Your task to perform on an android device: open app "Flipkart Online Shopping App" (install if not already installed) Image 0: 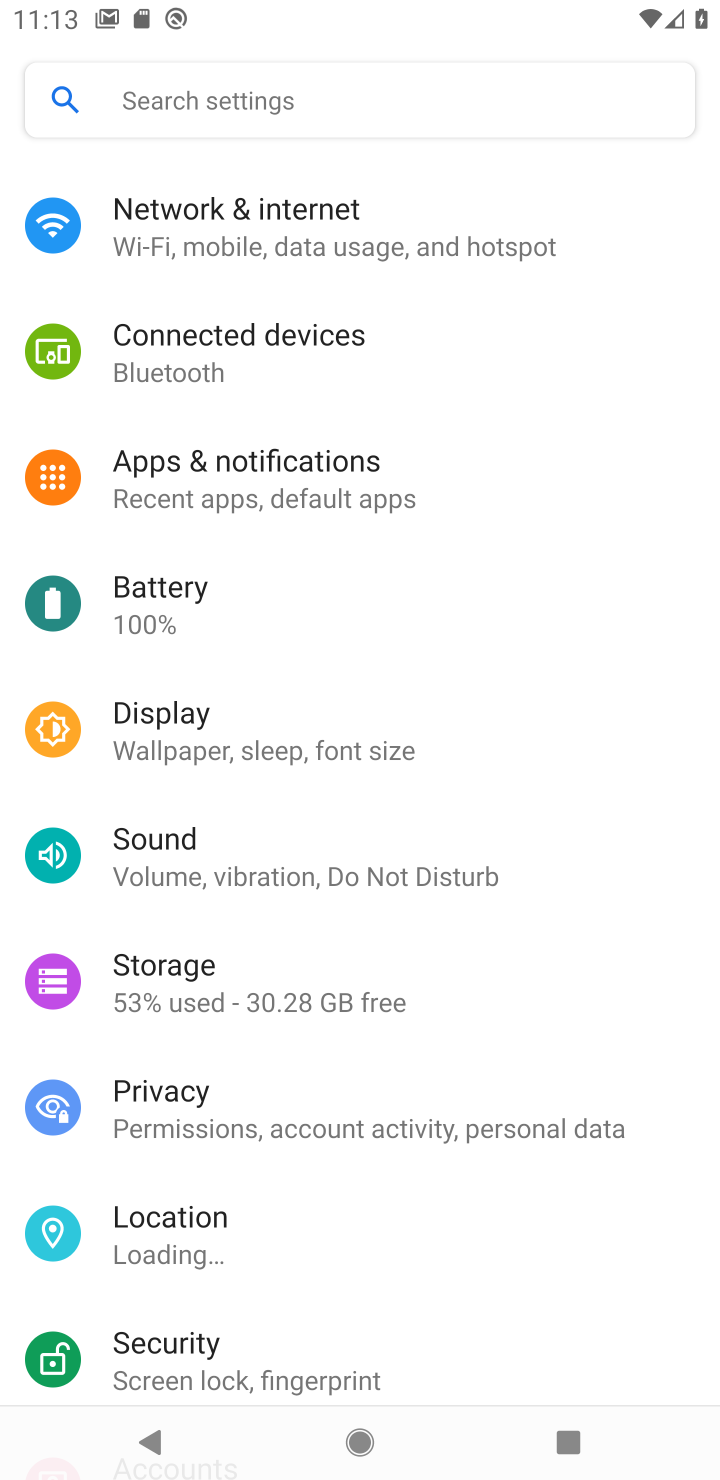
Step 0: press back button
Your task to perform on an android device: open app "Flipkart Online Shopping App" (install if not already installed) Image 1: 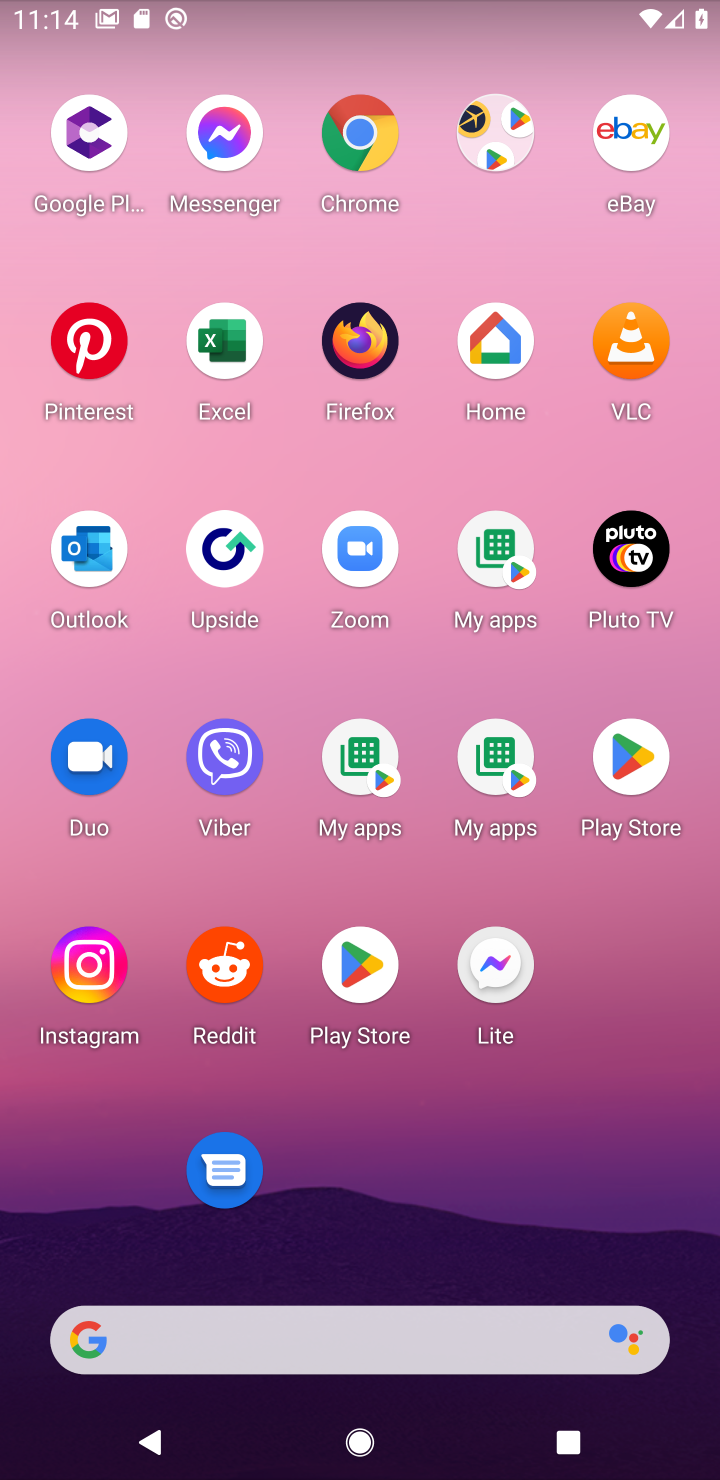
Step 1: click (335, 976)
Your task to perform on an android device: open app "Flipkart Online Shopping App" (install if not already installed) Image 2: 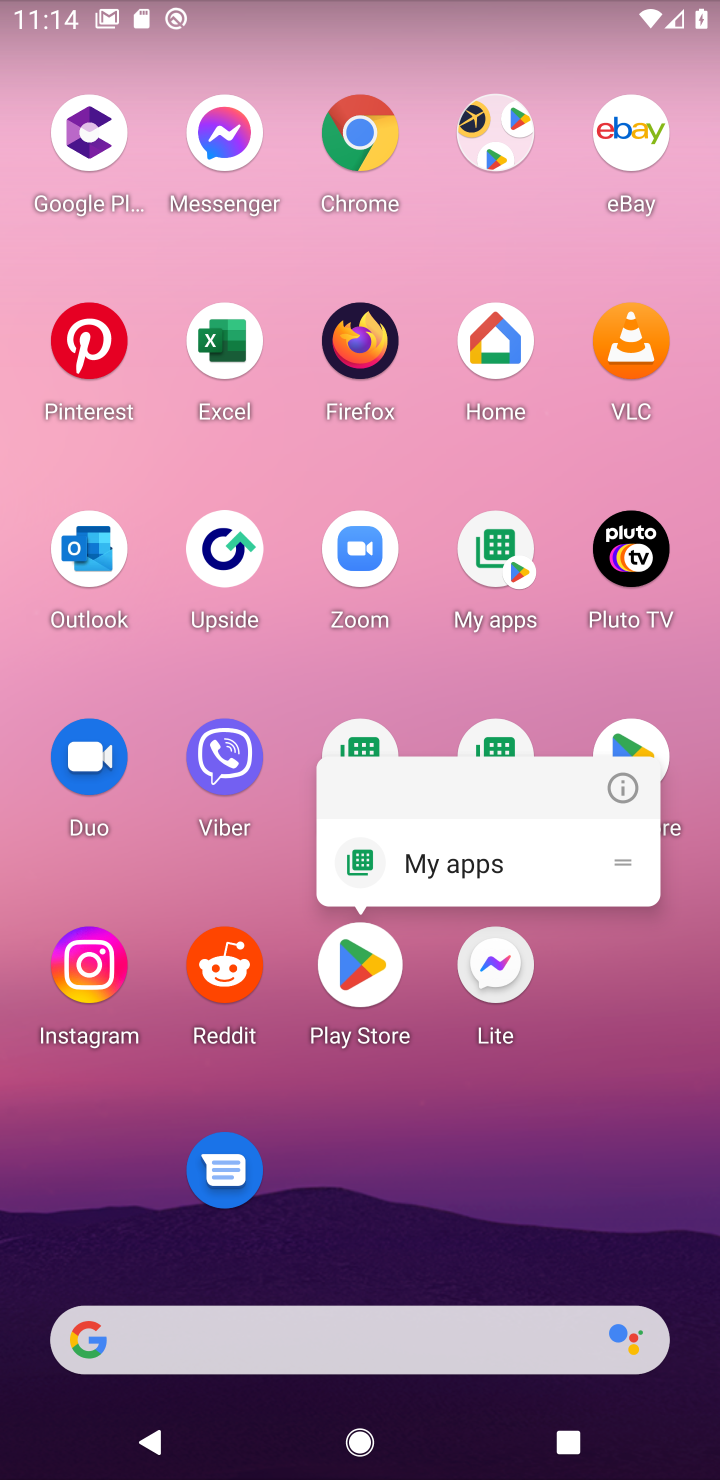
Step 2: click (338, 976)
Your task to perform on an android device: open app "Flipkart Online Shopping App" (install if not already installed) Image 3: 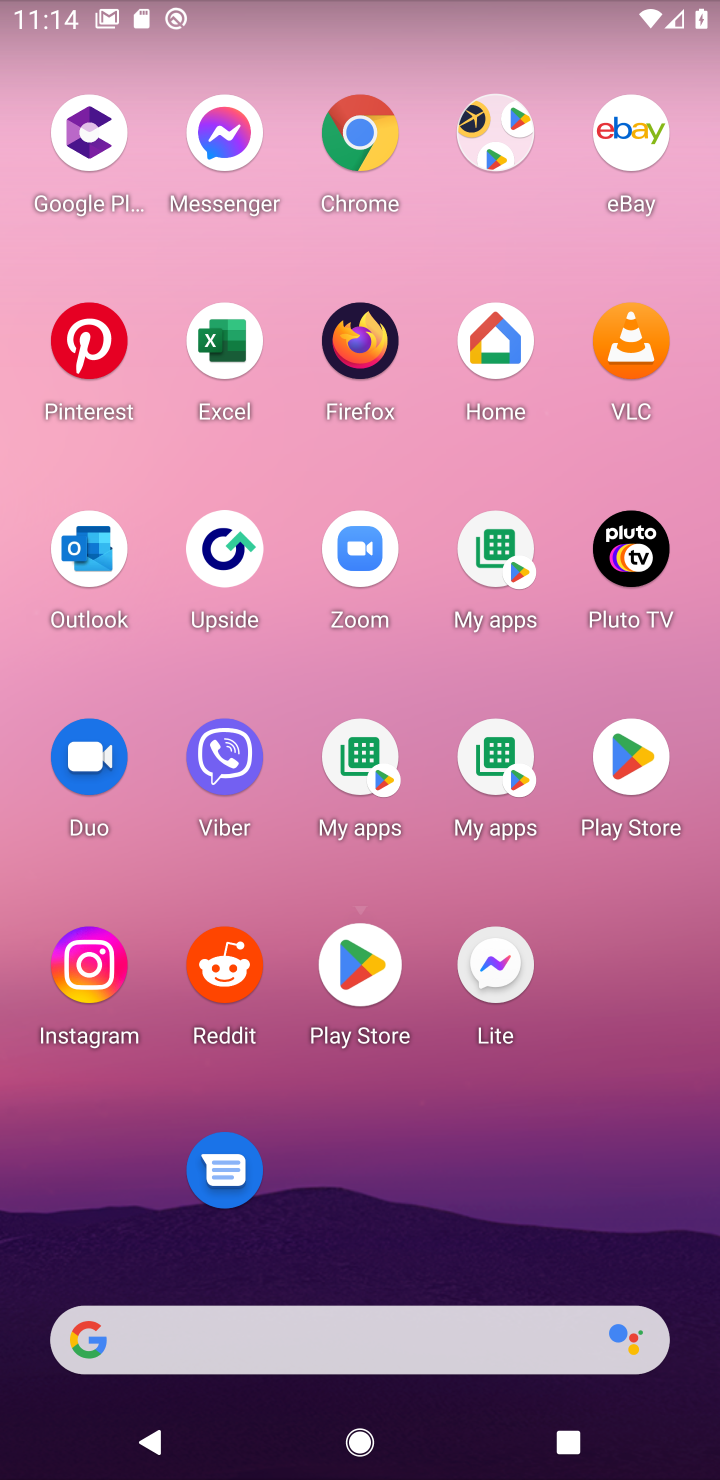
Step 3: click (460, 858)
Your task to perform on an android device: open app "Flipkart Online Shopping App" (install if not already installed) Image 4: 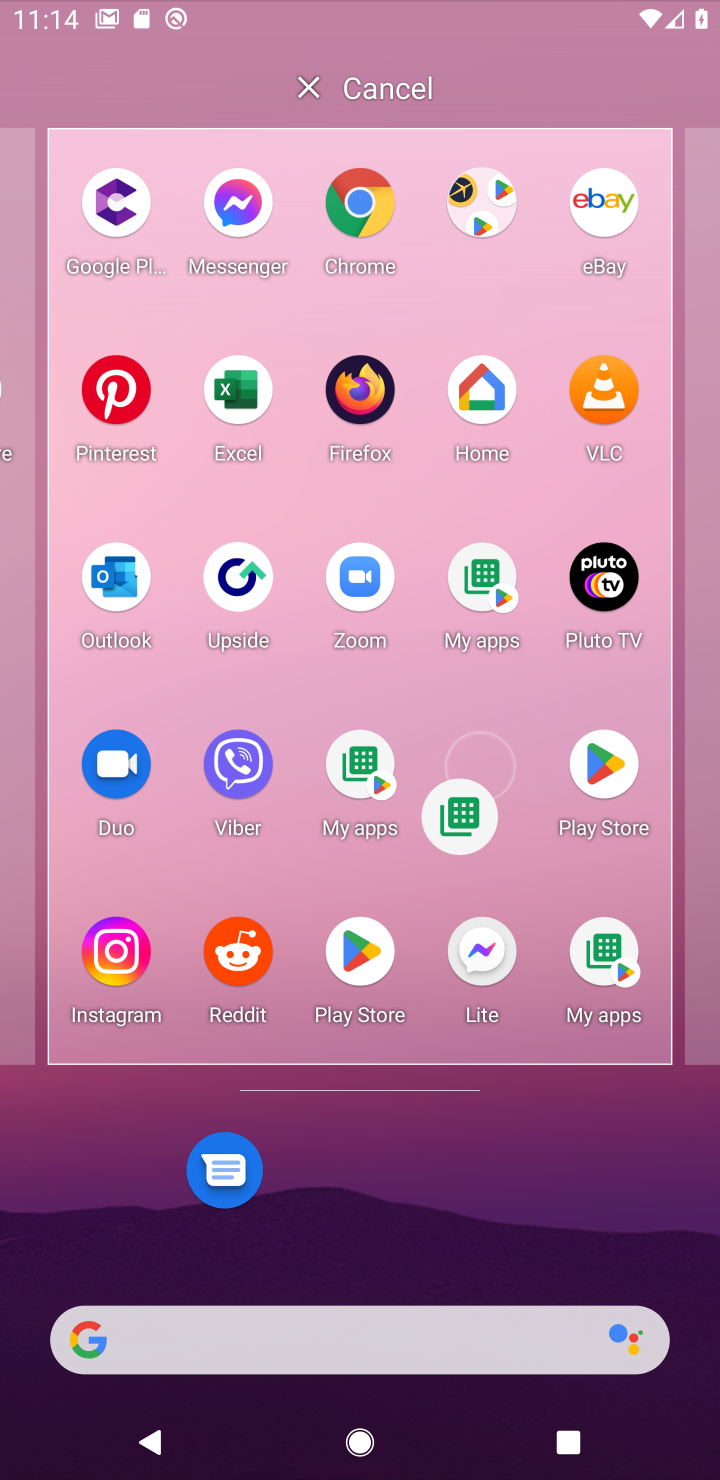
Step 4: click (492, 873)
Your task to perform on an android device: open app "Flipkart Online Shopping App" (install if not already installed) Image 5: 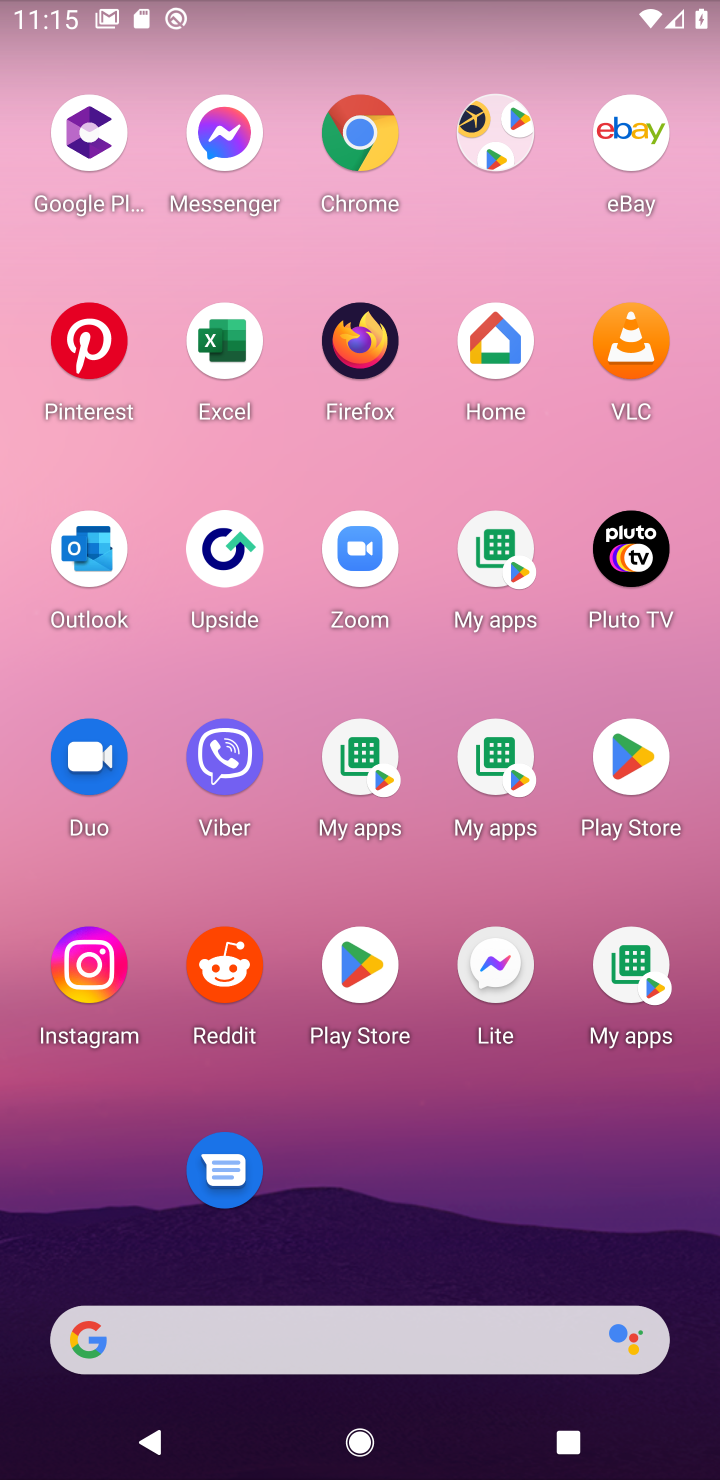
Step 5: click (639, 764)
Your task to perform on an android device: open app "Flipkart Online Shopping App" (install if not already installed) Image 6: 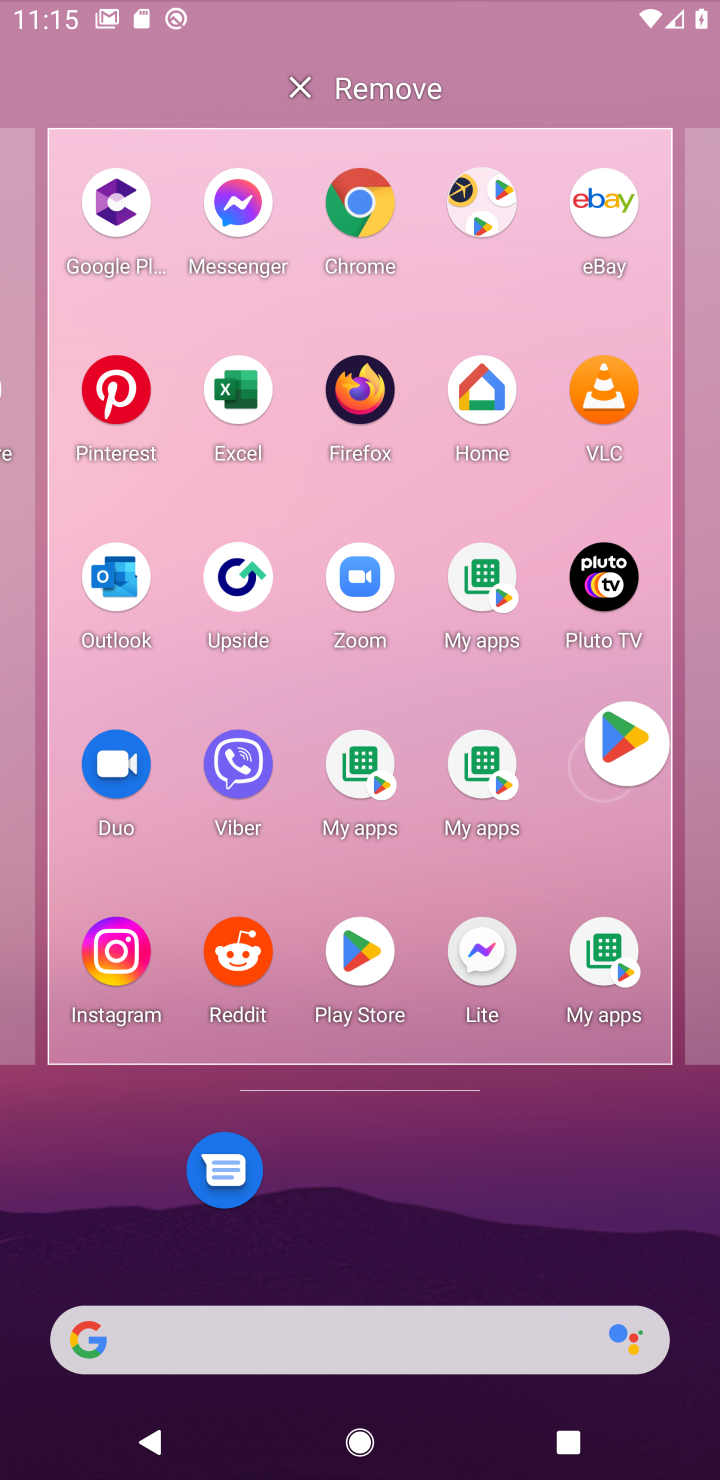
Step 6: click (528, 677)
Your task to perform on an android device: open app "Flipkart Online Shopping App" (install if not already installed) Image 7: 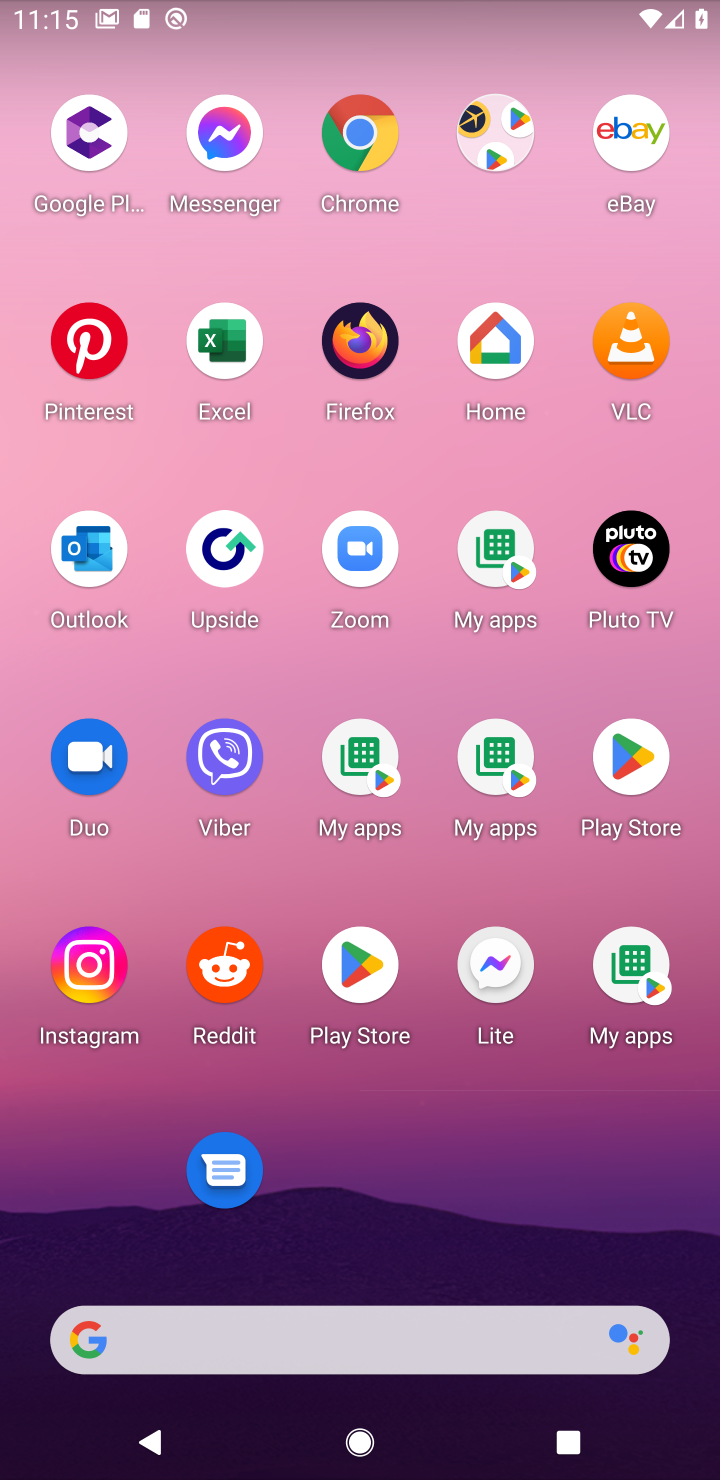
Step 7: click (621, 791)
Your task to perform on an android device: open app "Flipkart Online Shopping App" (install if not already installed) Image 8: 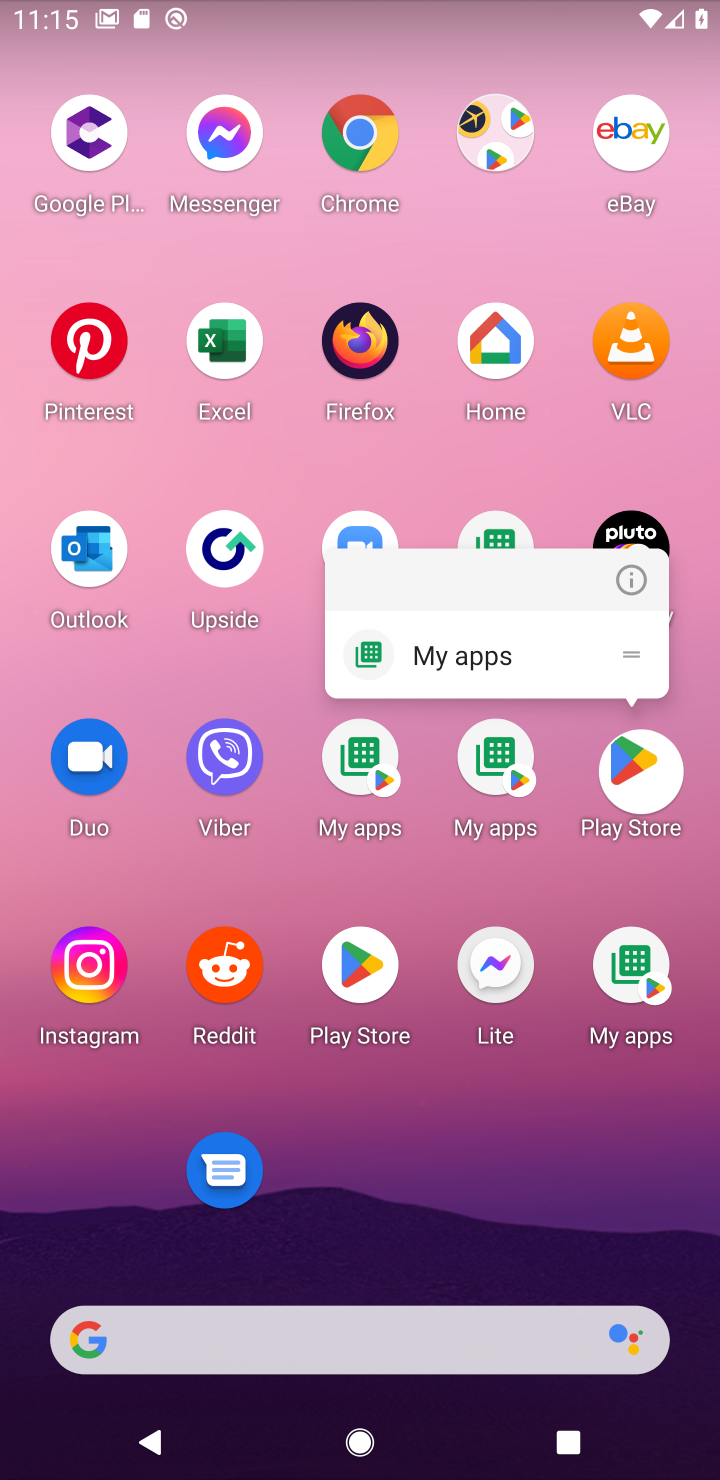
Step 8: click (631, 806)
Your task to perform on an android device: open app "Flipkart Online Shopping App" (install if not already installed) Image 9: 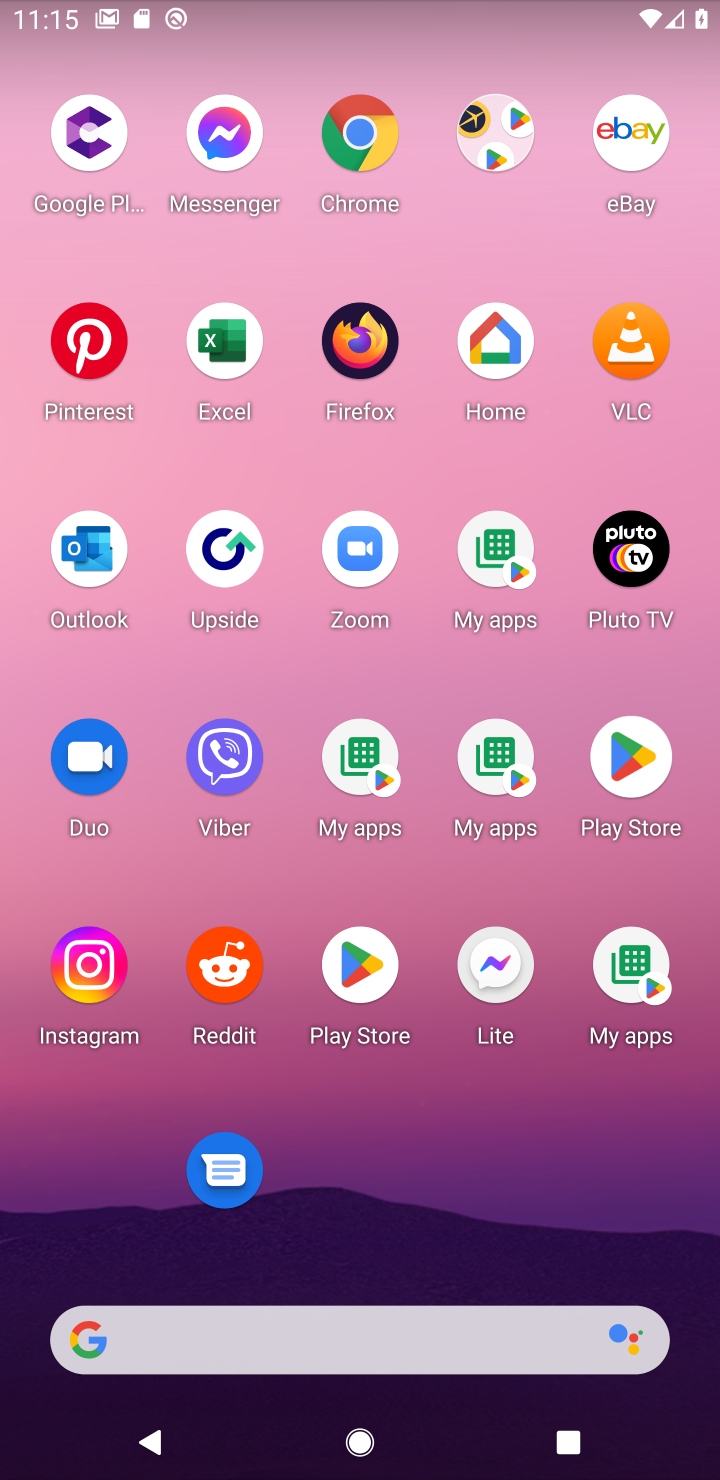
Step 9: click (500, 645)
Your task to perform on an android device: open app "Flipkart Online Shopping App" (install if not already installed) Image 10: 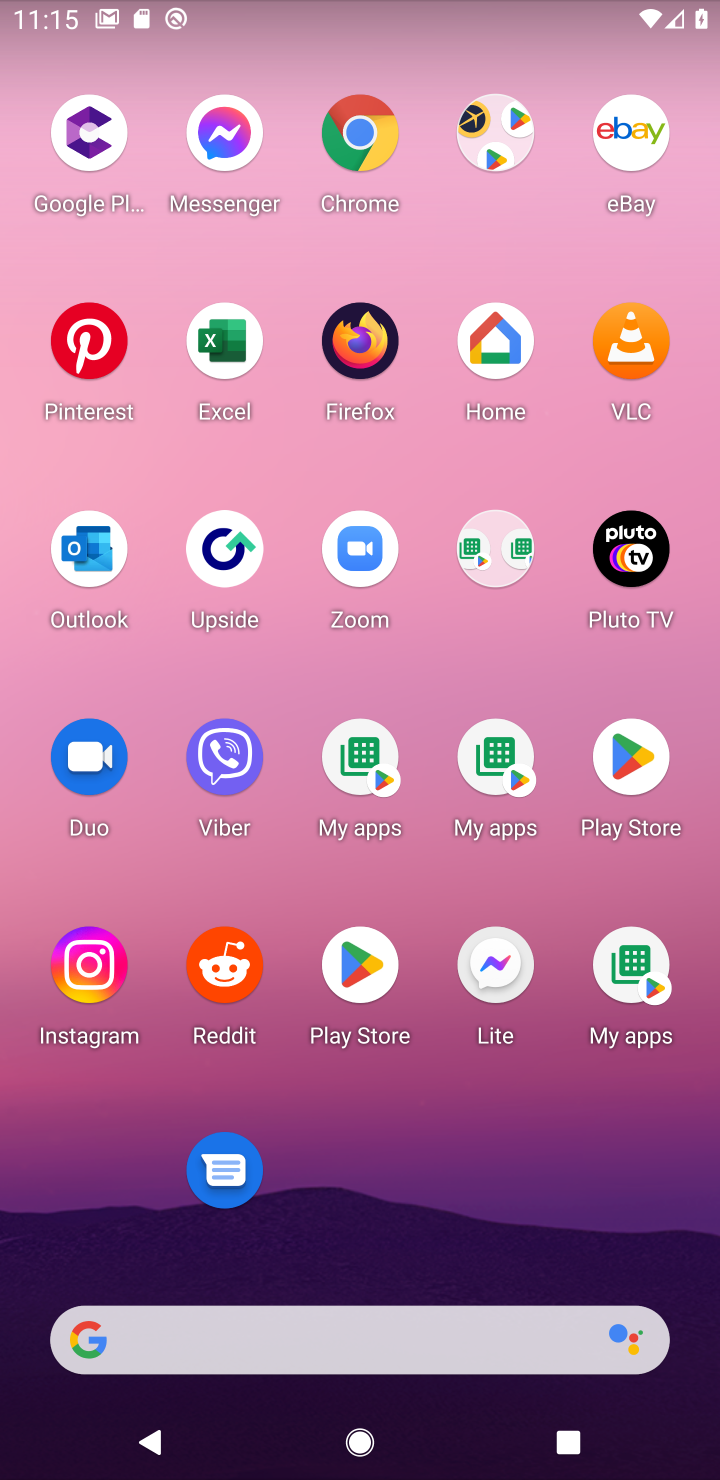
Step 10: click (641, 774)
Your task to perform on an android device: open app "Flipkart Online Shopping App" (install if not already installed) Image 11: 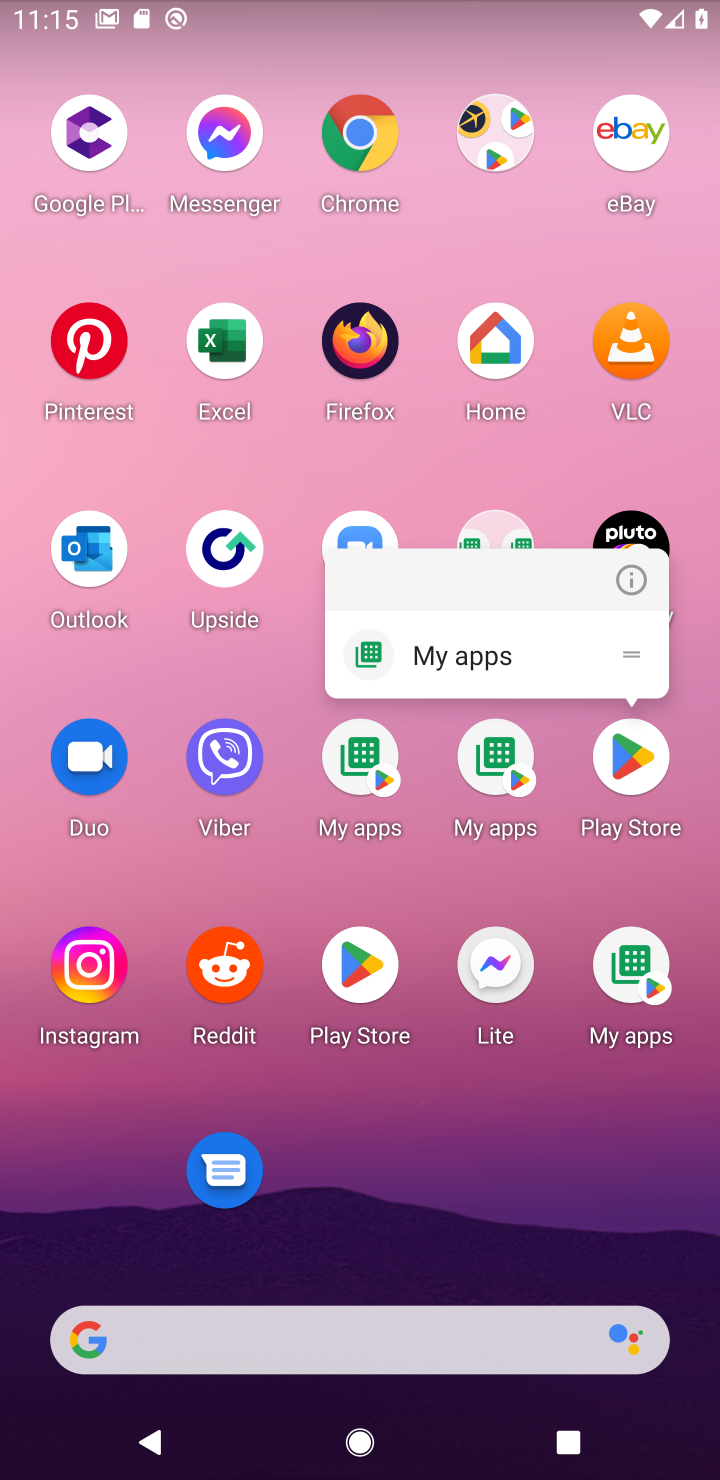
Step 11: drag from (494, 677) to (366, 690)
Your task to perform on an android device: open app "Flipkart Online Shopping App" (install if not already installed) Image 12: 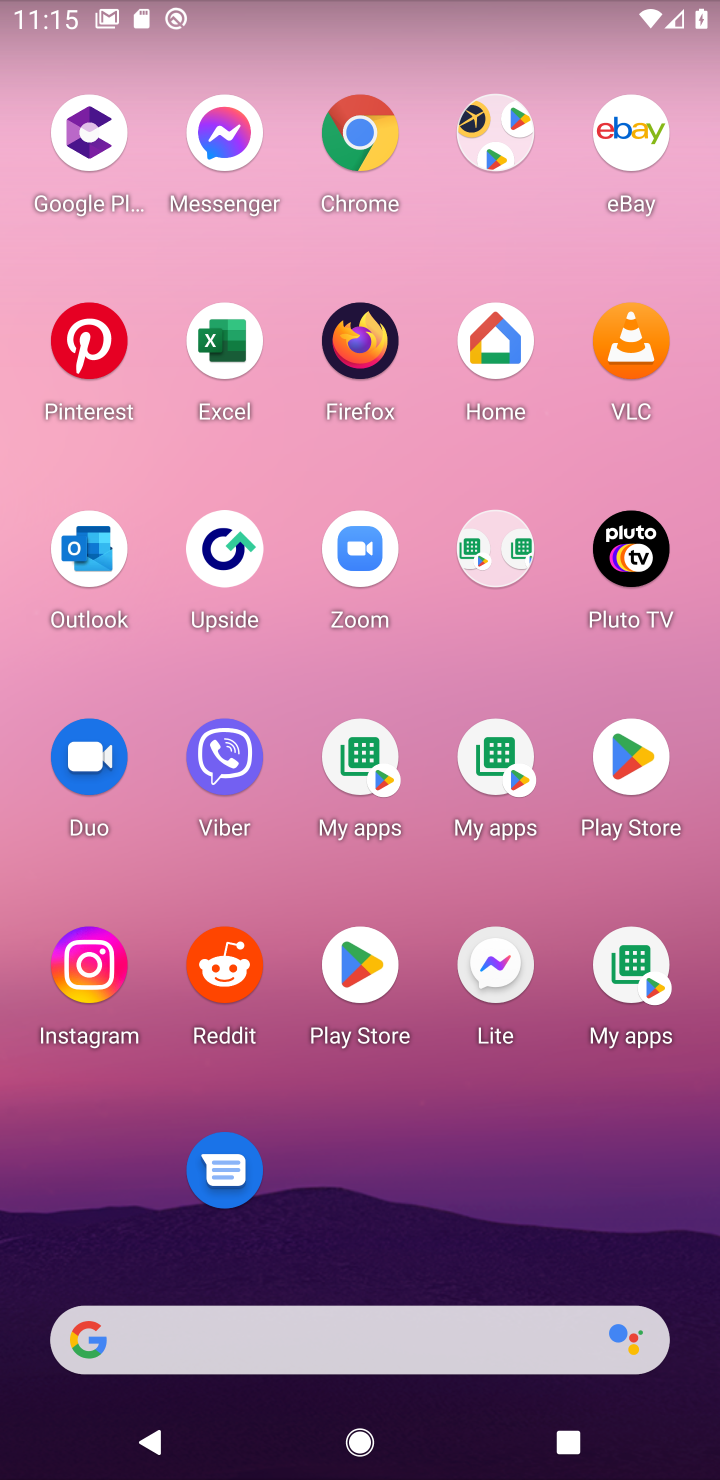
Step 12: click (640, 770)
Your task to perform on an android device: open app "Flipkart Online Shopping App" (install if not already installed) Image 13: 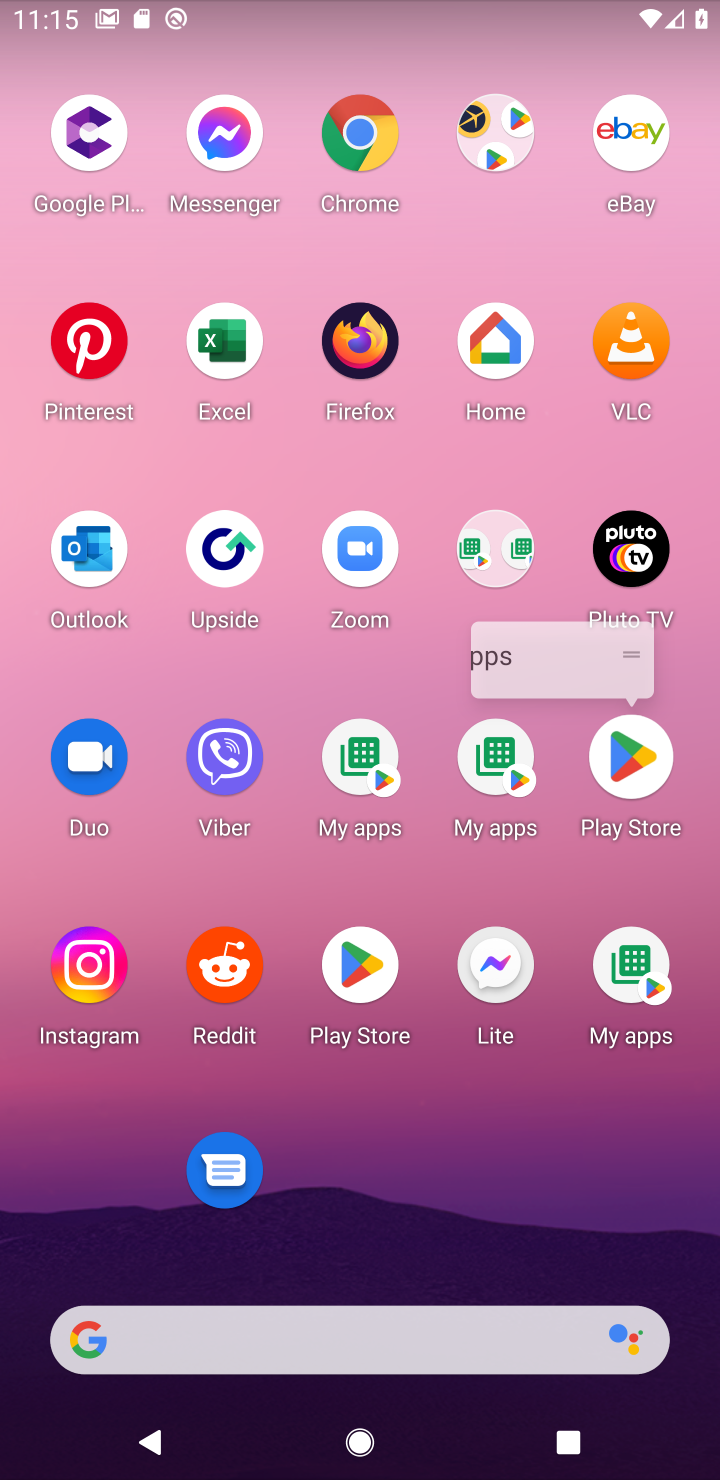
Step 13: click (643, 769)
Your task to perform on an android device: open app "Flipkart Online Shopping App" (install if not already installed) Image 14: 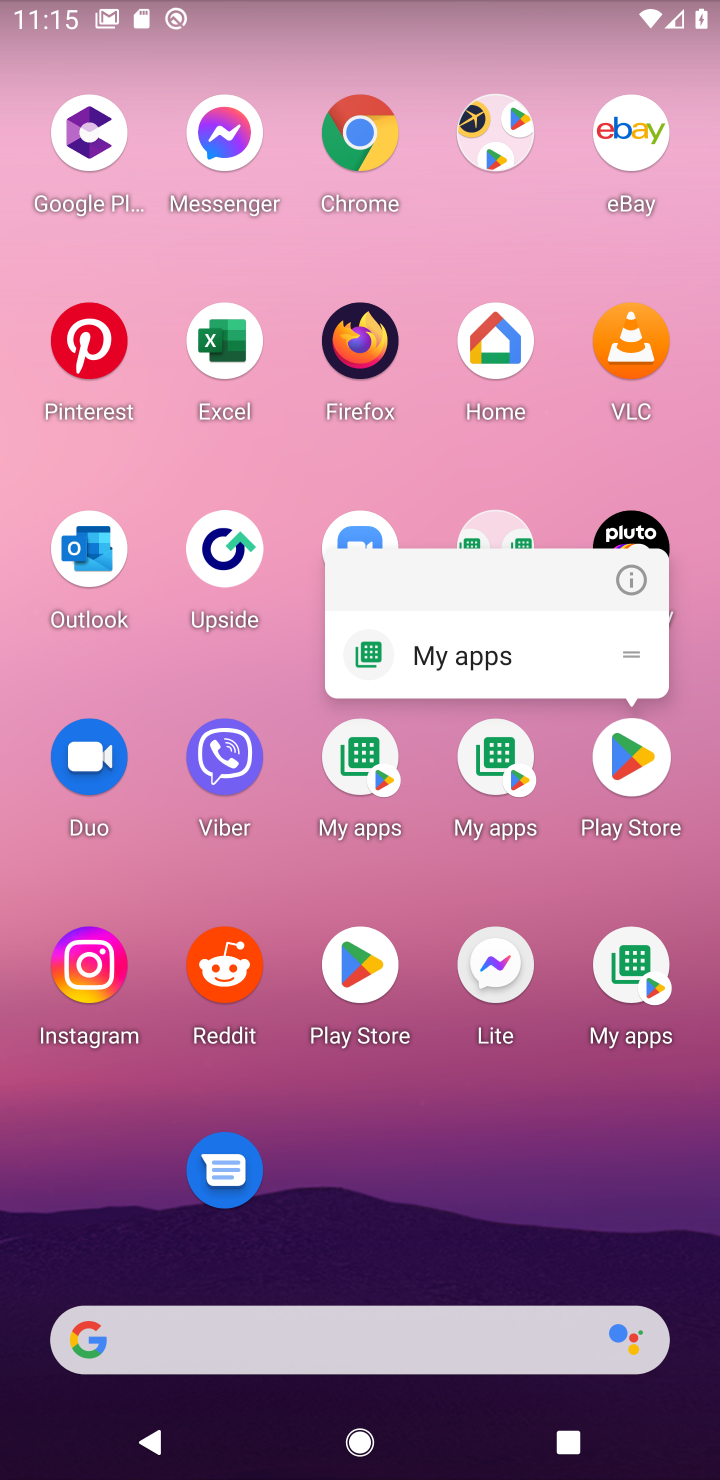
Step 14: click (647, 772)
Your task to perform on an android device: open app "Flipkart Online Shopping App" (install if not already installed) Image 15: 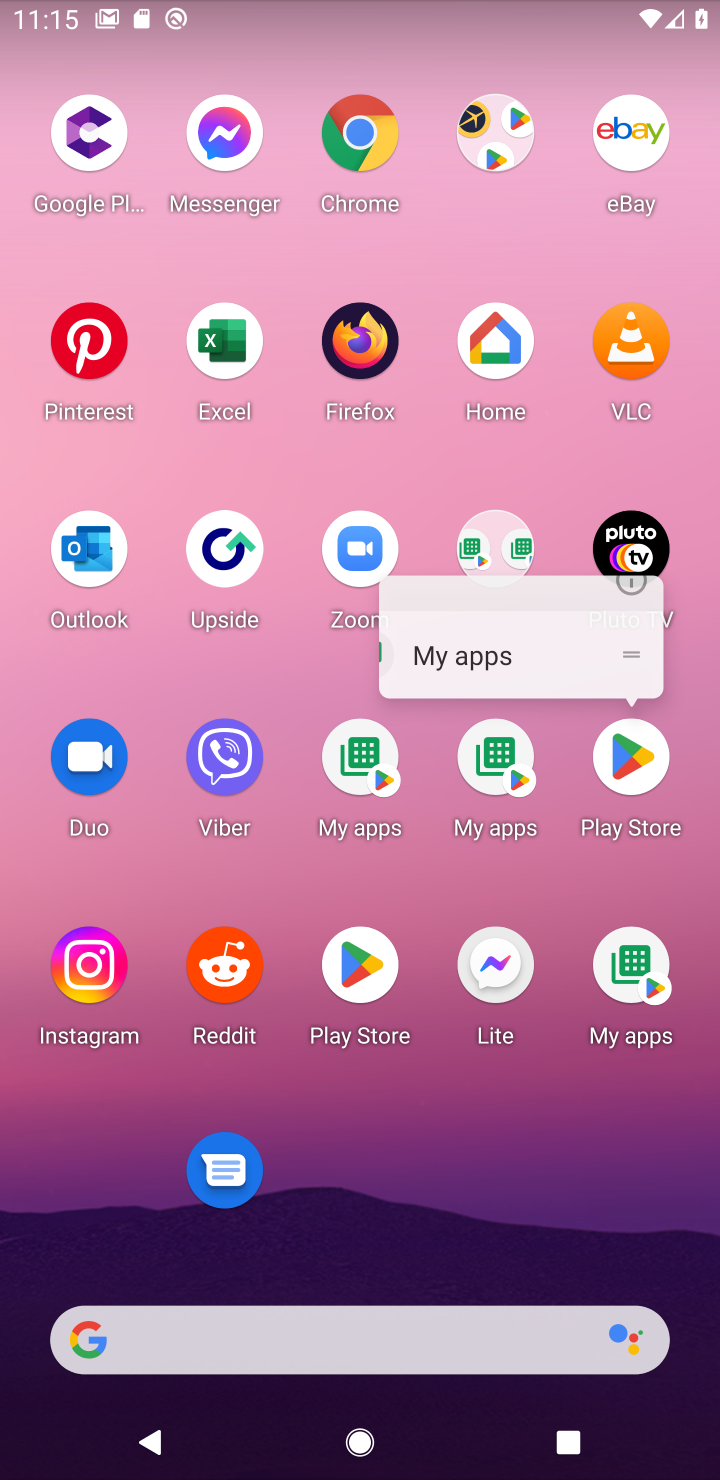
Step 15: click (448, 651)
Your task to perform on an android device: open app "Flipkart Online Shopping App" (install if not already installed) Image 16: 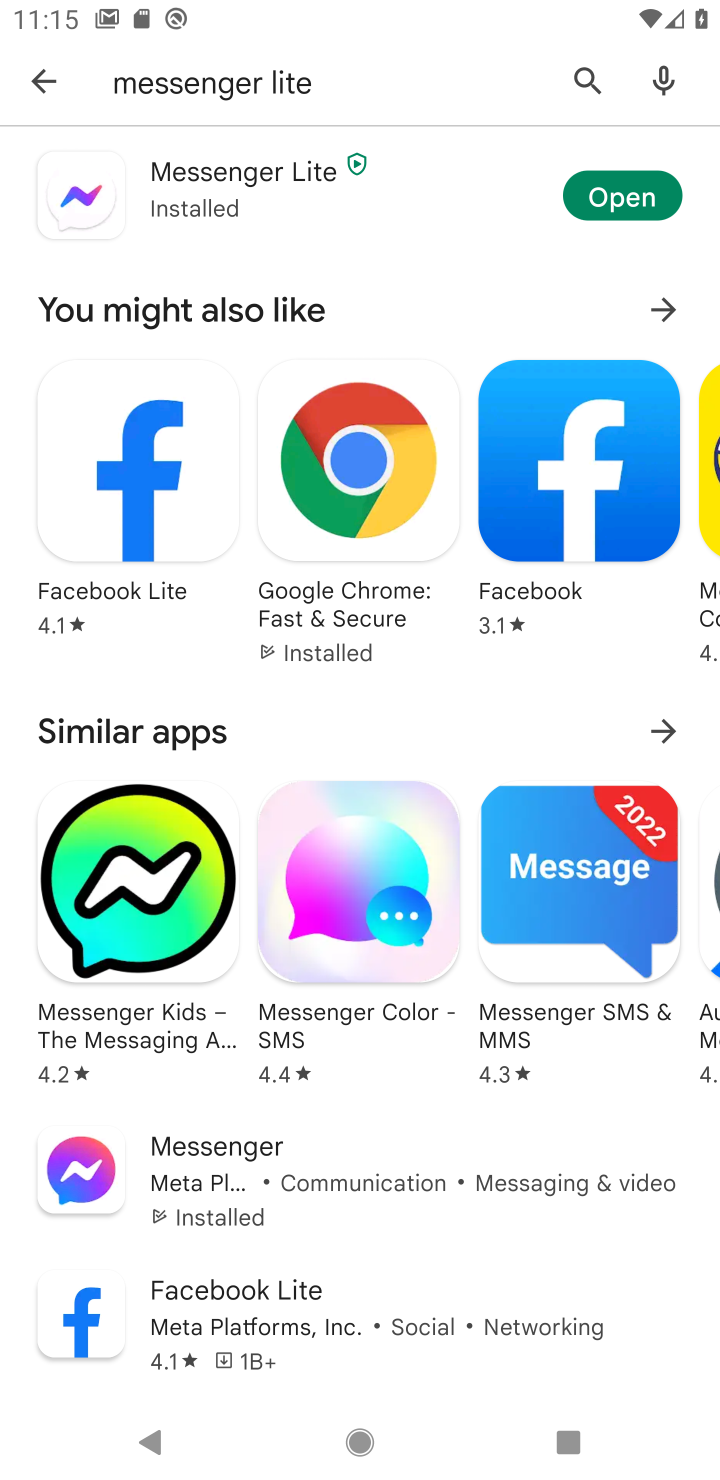
Step 16: click (52, 78)
Your task to perform on an android device: open app "Flipkart Online Shopping App" (install if not already installed) Image 17: 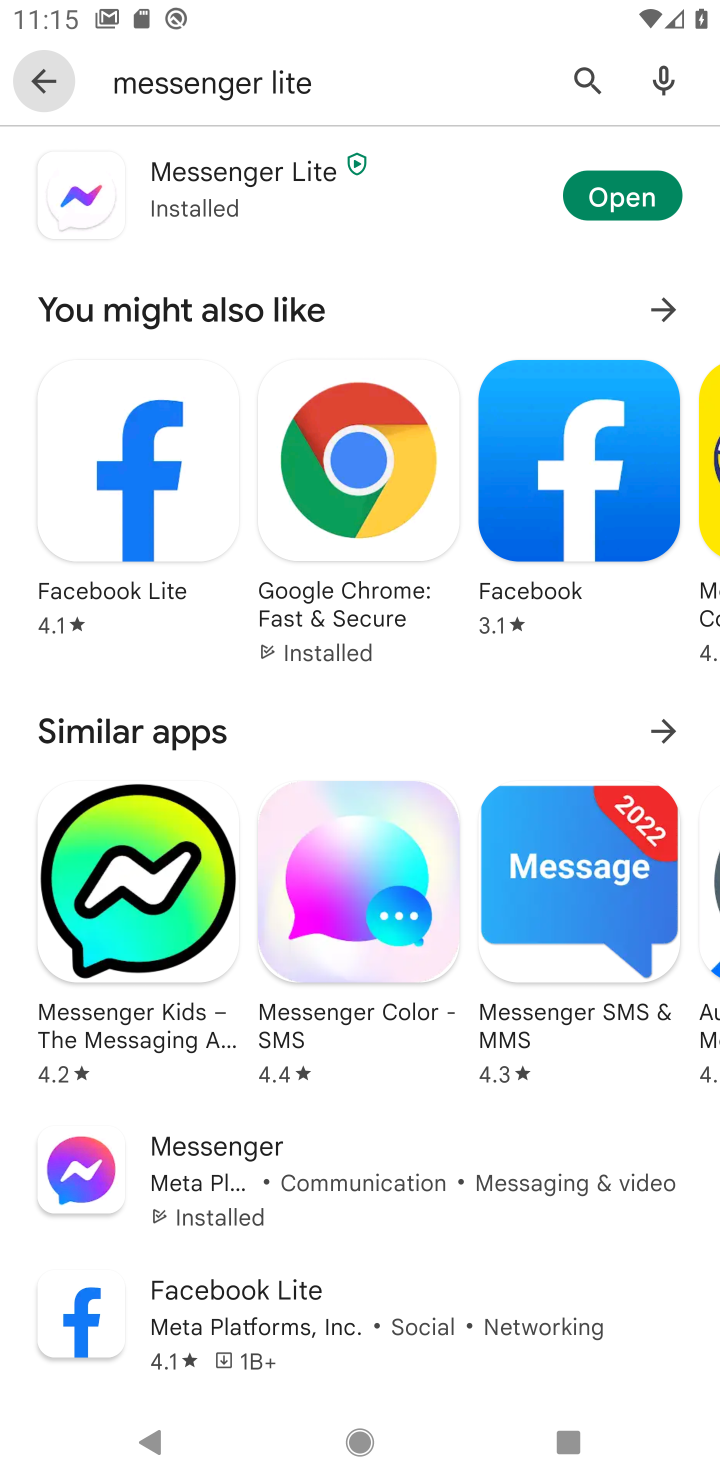
Step 17: click (590, 84)
Your task to perform on an android device: open app "Flipkart Online Shopping App" (install if not already installed) Image 18: 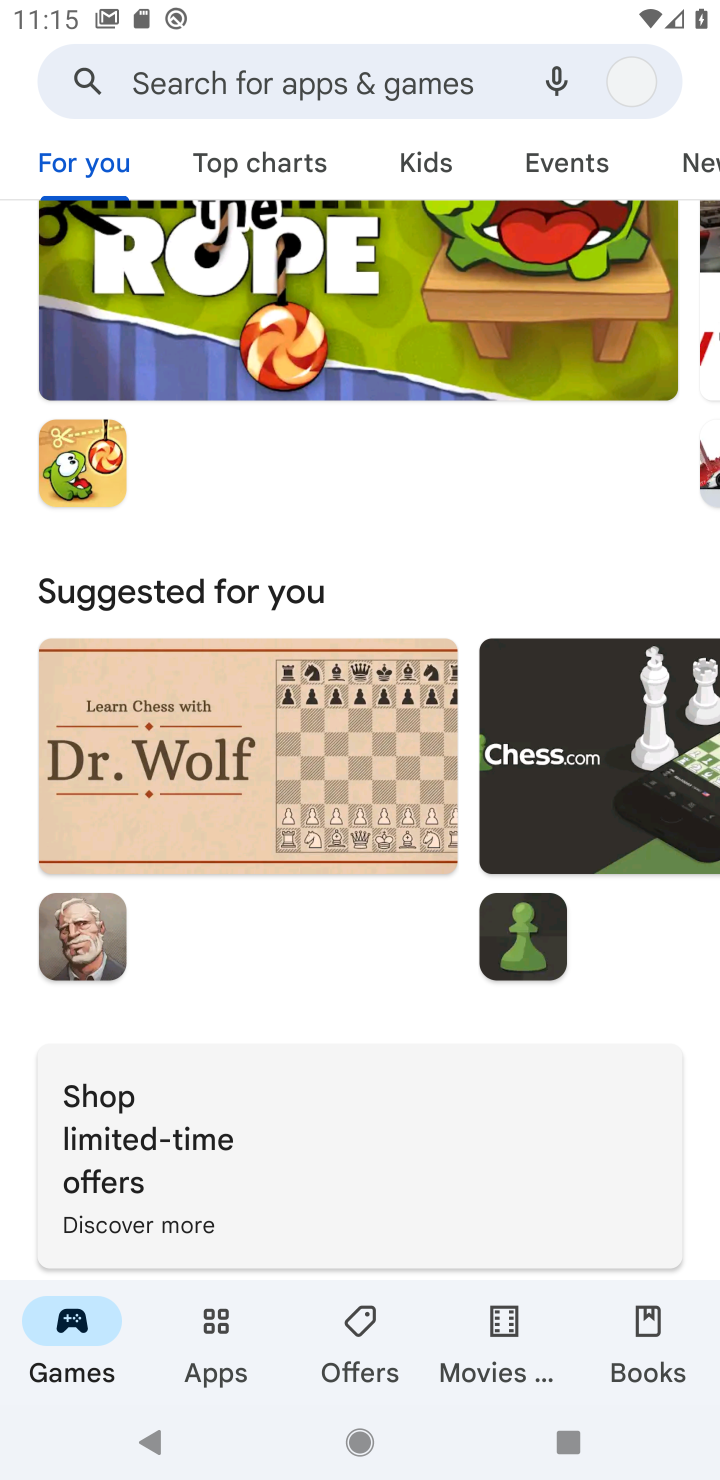
Step 18: click (575, 57)
Your task to perform on an android device: open app "Flipkart Online Shopping App" (install if not already installed) Image 19: 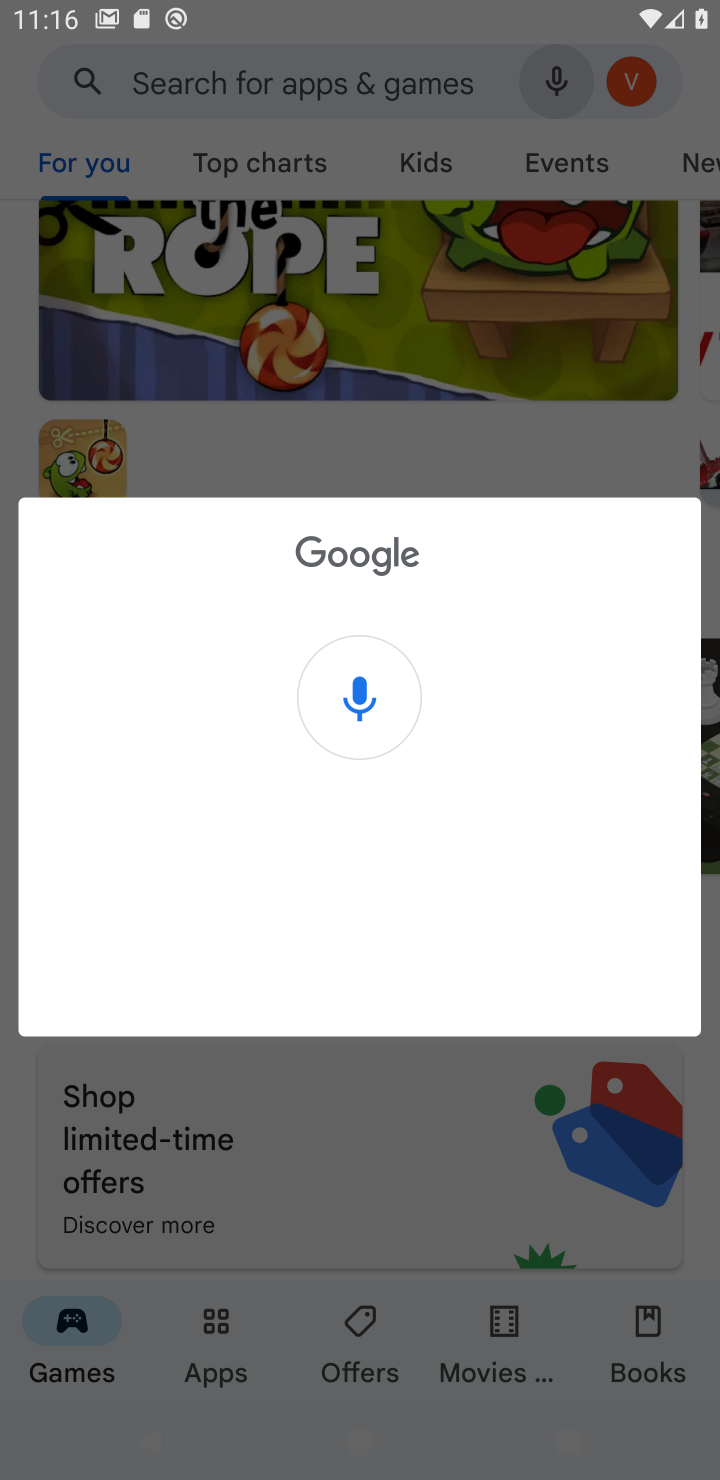
Step 19: click (268, 91)
Your task to perform on an android device: open app "Flipkart Online Shopping App" (install if not already installed) Image 20: 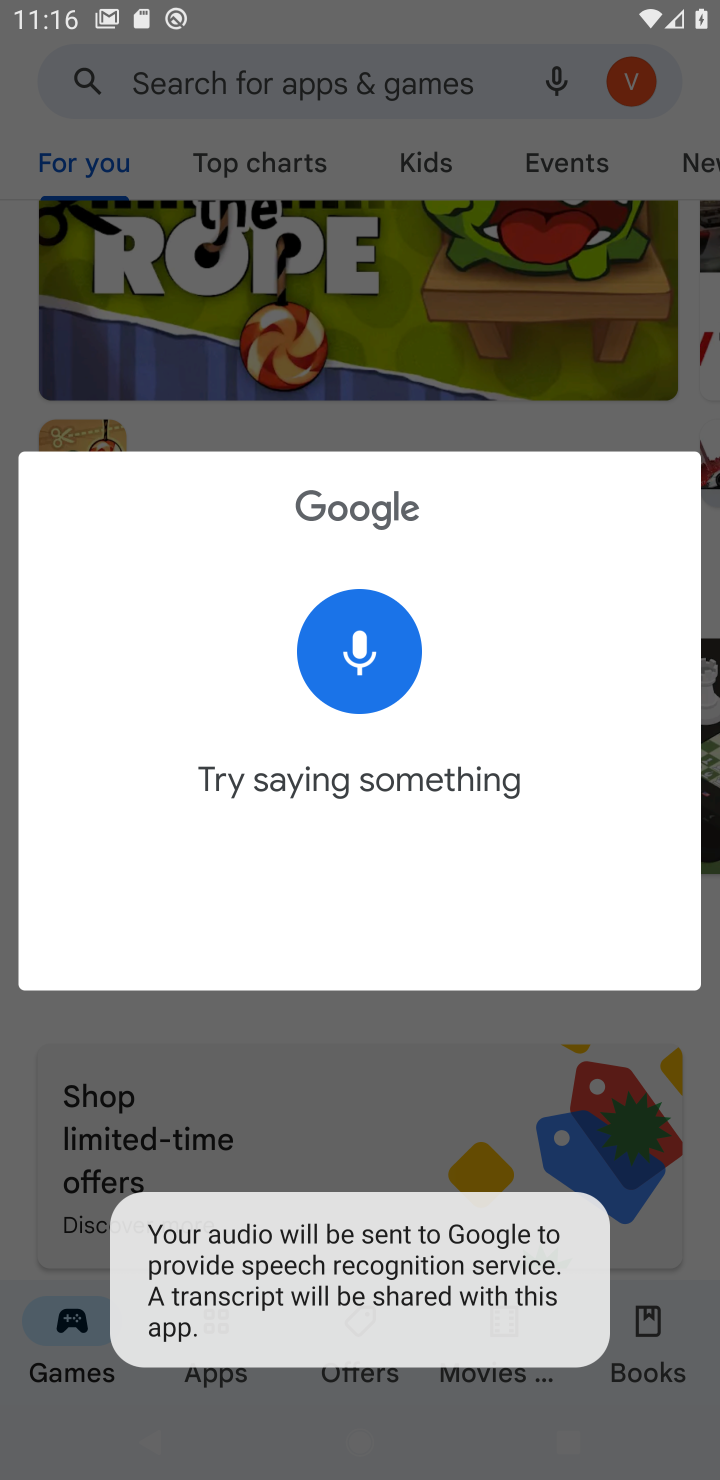
Step 20: click (410, 381)
Your task to perform on an android device: open app "Flipkart Online Shopping App" (install if not already installed) Image 21: 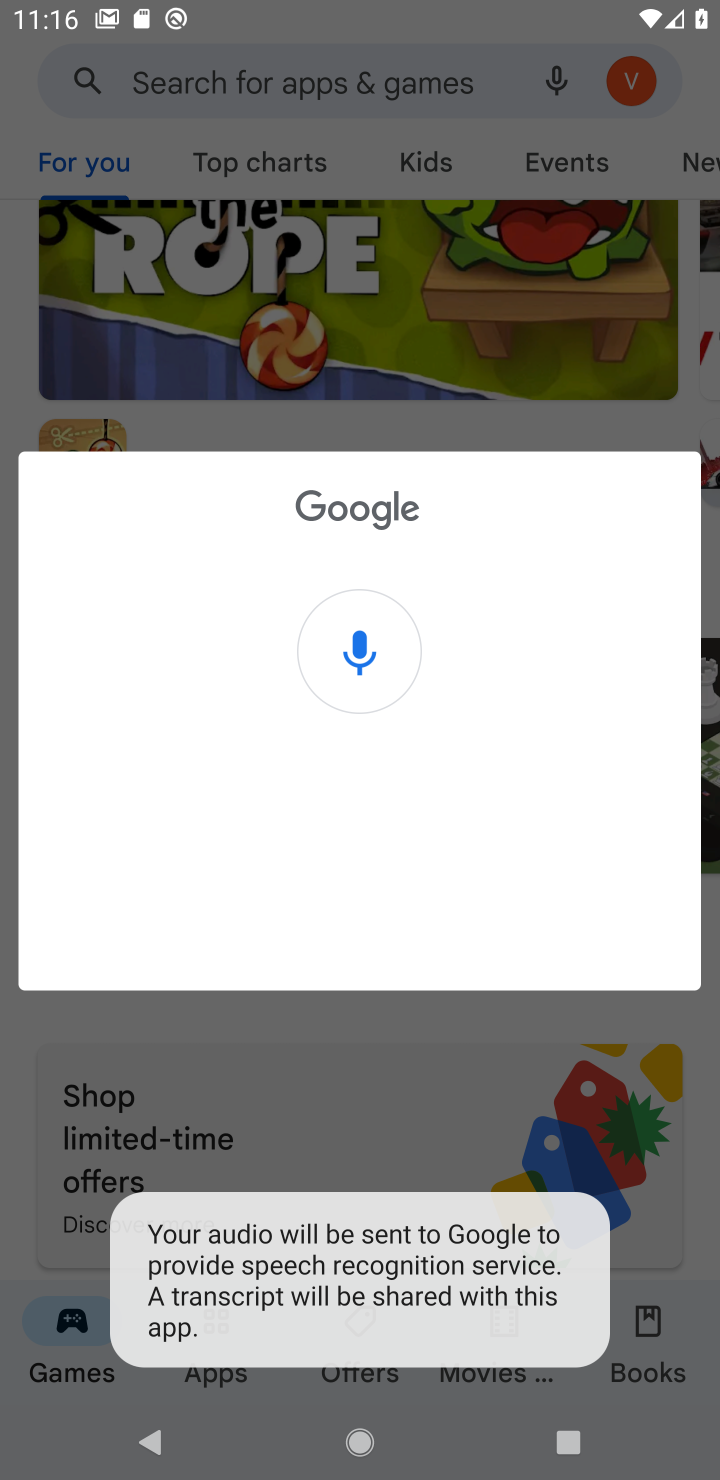
Step 21: click (219, 98)
Your task to perform on an android device: open app "Flipkart Online Shopping App" (install if not already installed) Image 22: 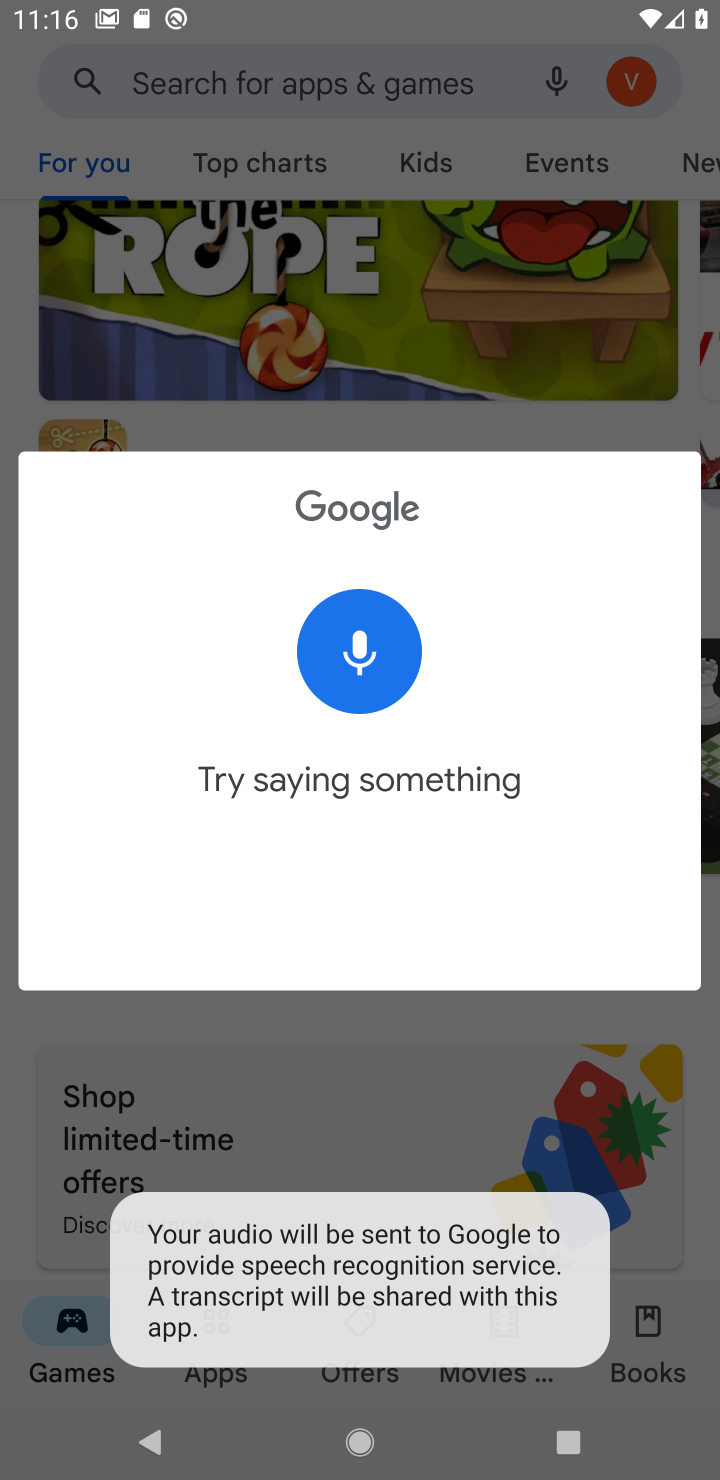
Step 22: click (251, 87)
Your task to perform on an android device: open app "Flipkart Online Shopping App" (install if not already installed) Image 23: 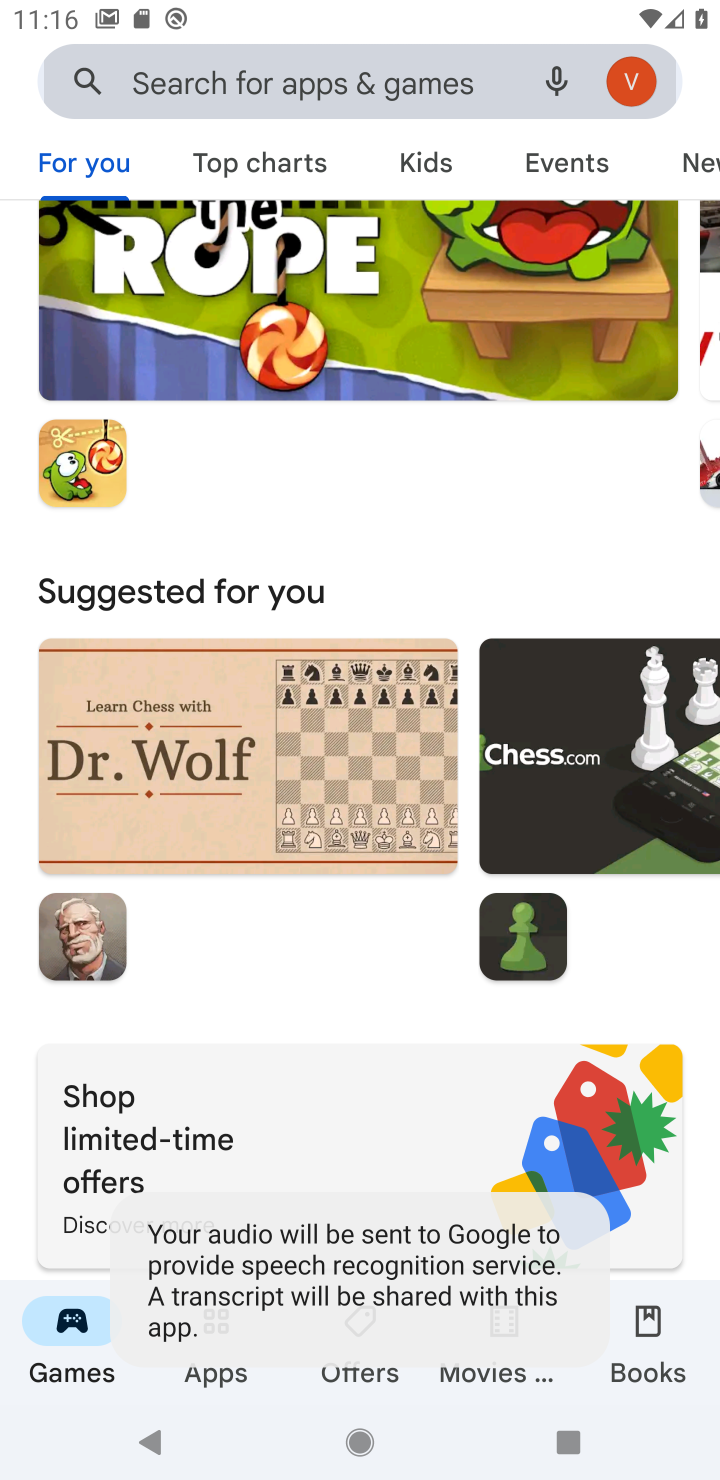
Step 23: click (267, 76)
Your task to perform on an android device: open app "Flipkart Online Shopping App" (install if not already installed) Image 24: 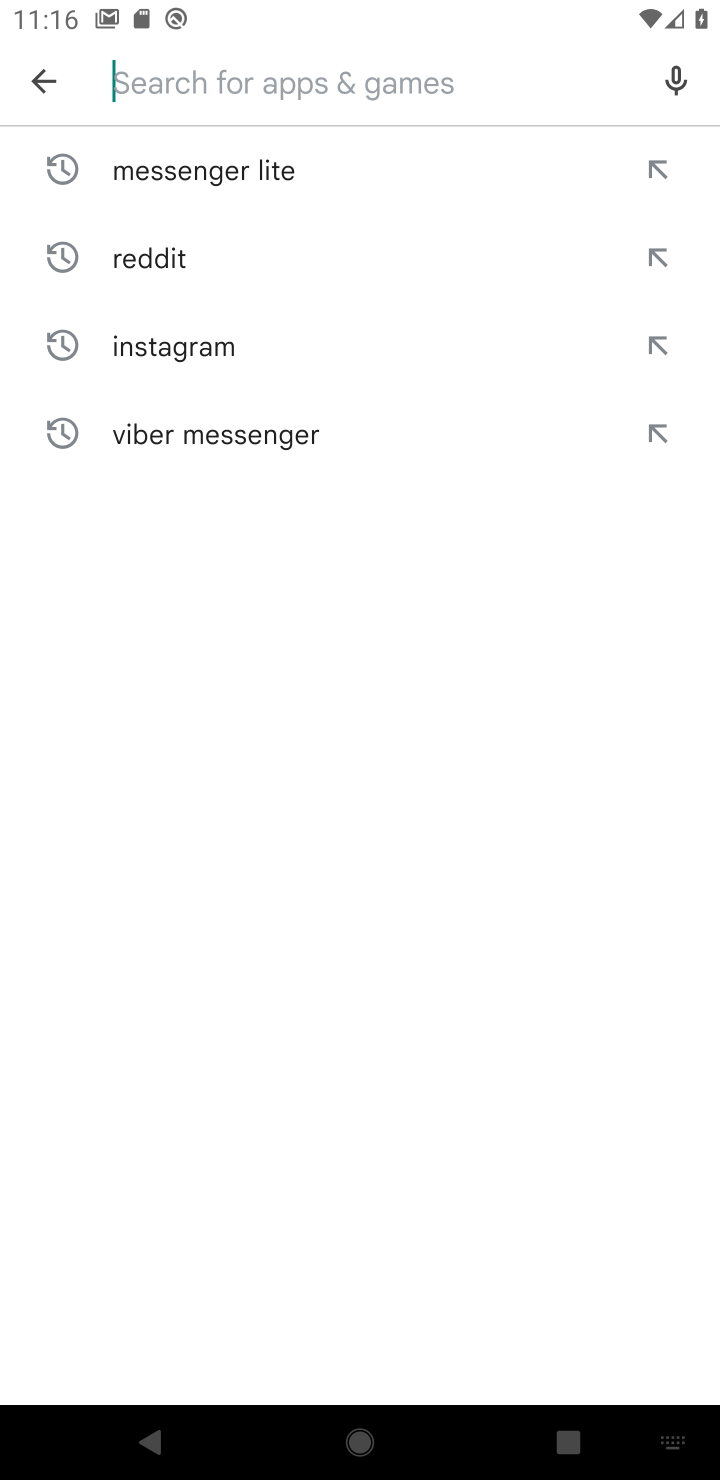
Step 24: click (267, 76)
Your task to perform on an android device: open app "Flipkart Online Shopping App" (install if not already installed) Image 25: 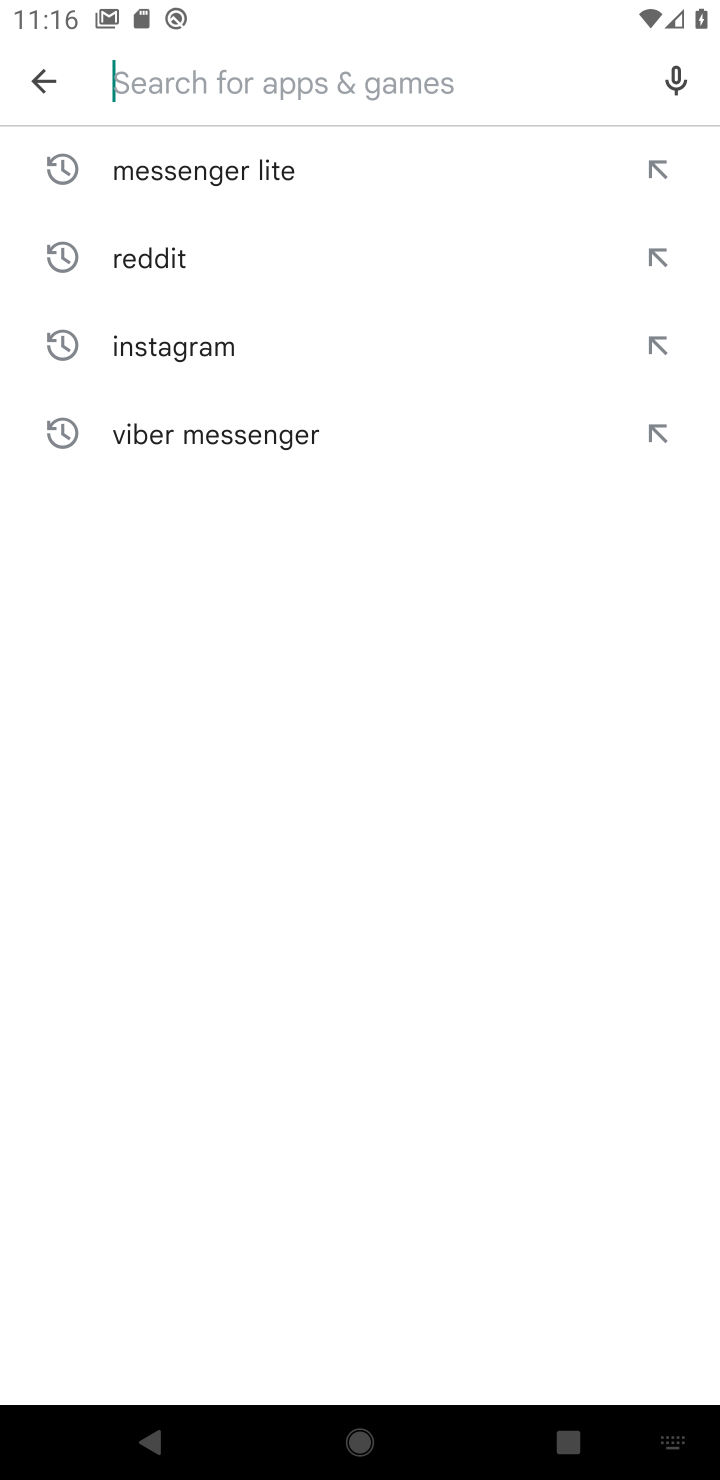
Step 25: type "flipkart"
Your task to perform on an android device: open app "Flipkart Online Shopping App" (install if not already installed) Image 26: 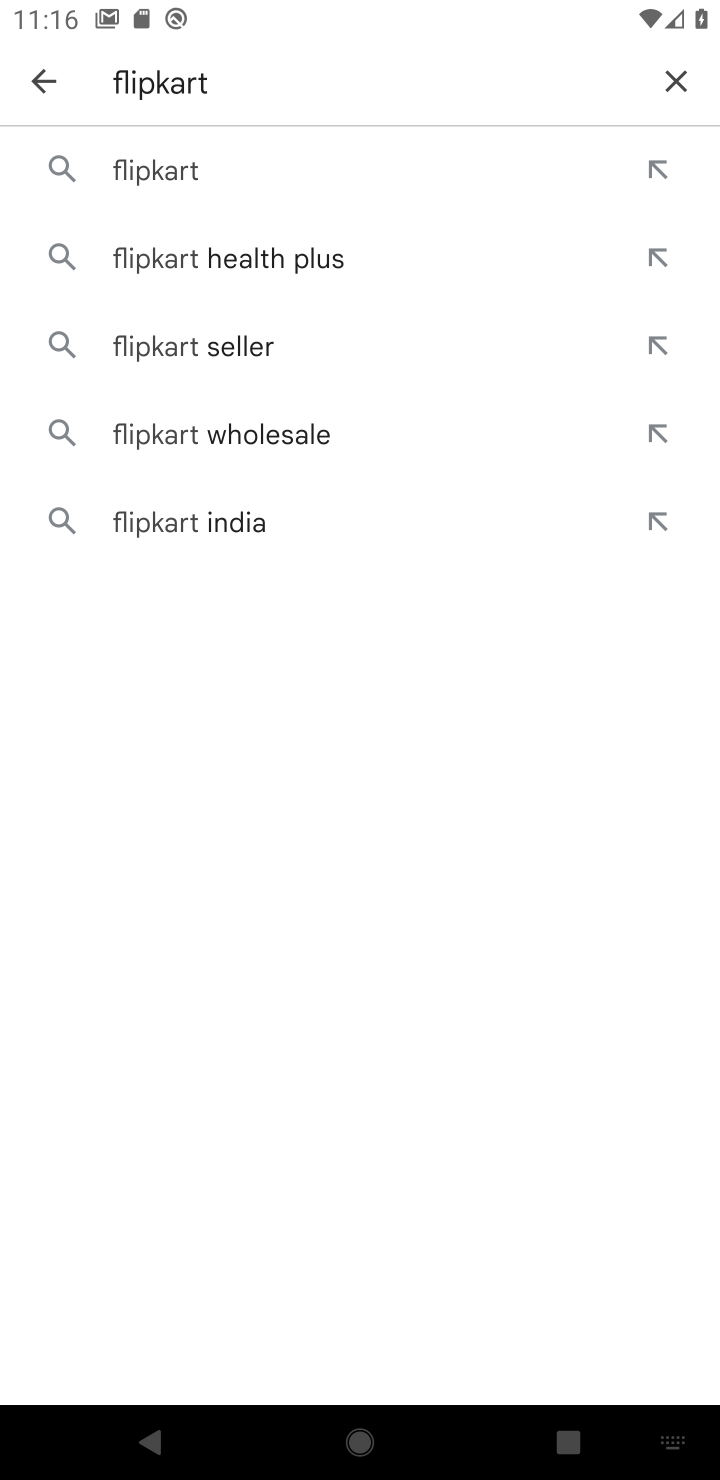
Step 26: click (155, 159)
Your task to perform on an android device: open app "Flipkart Online Shopping App" (install if not already installed) Image 27: 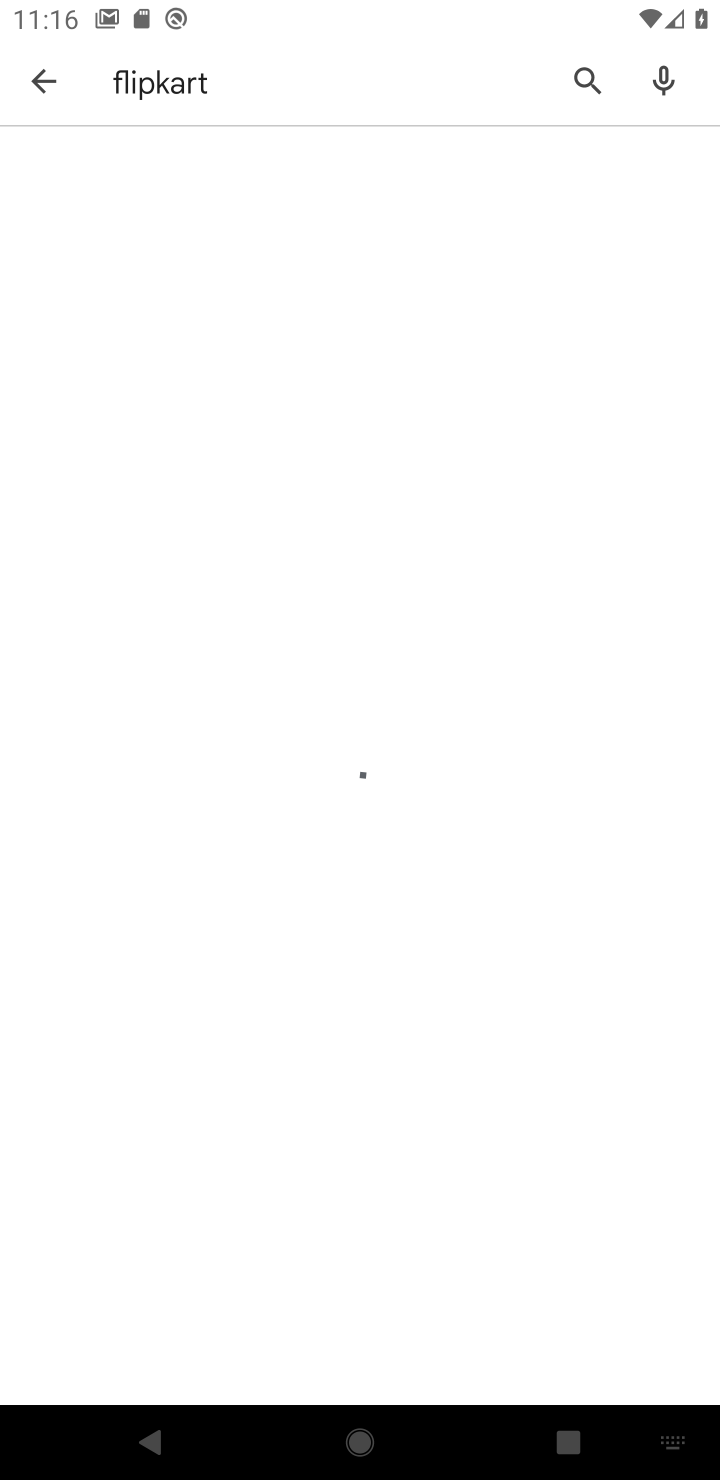
Step 27: click (663, 174)
Your task to perform on an android device: open app "Flipkart Online Shopping App" (install if not already installed) Image 28: 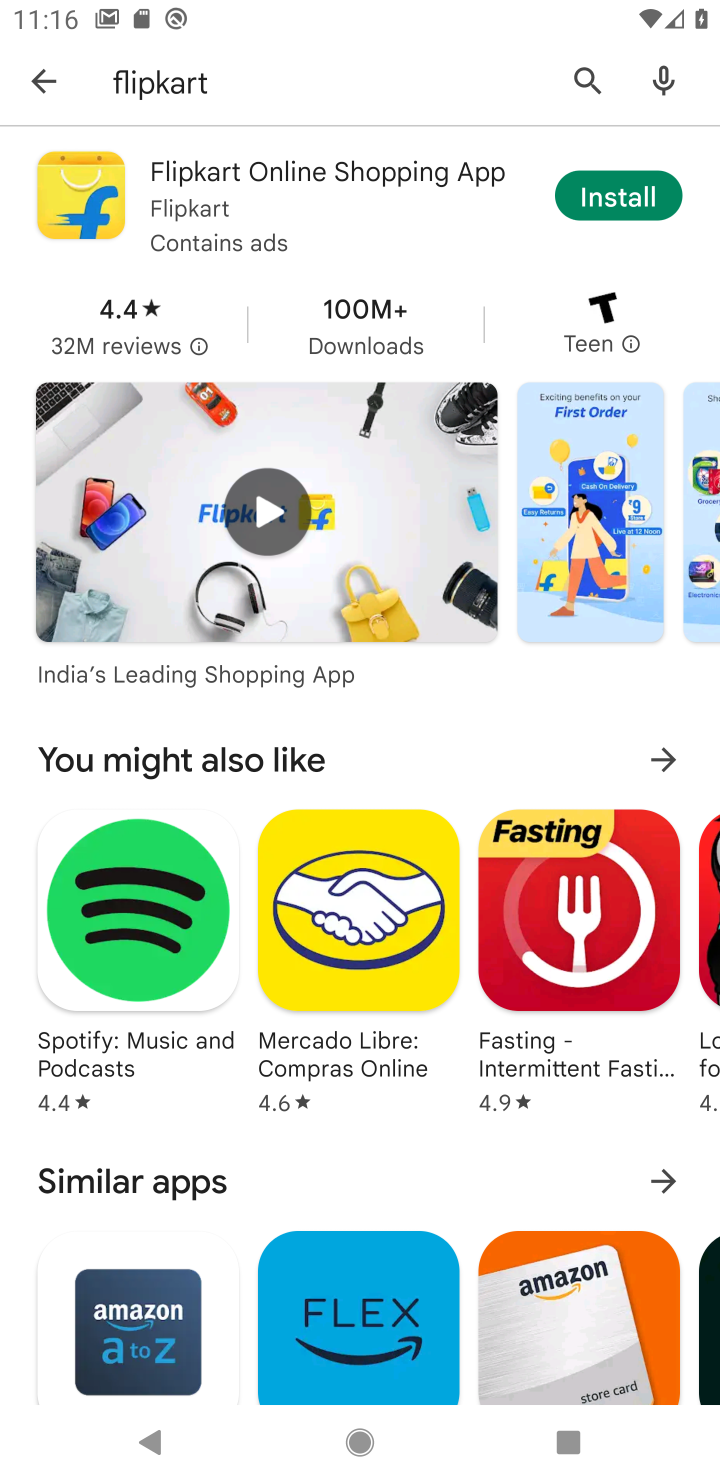
Step 28: click (627, 208)
Your task to perform on an android device: open app "Flipkart Online Shopping App" (install if not already installed) Image 29: 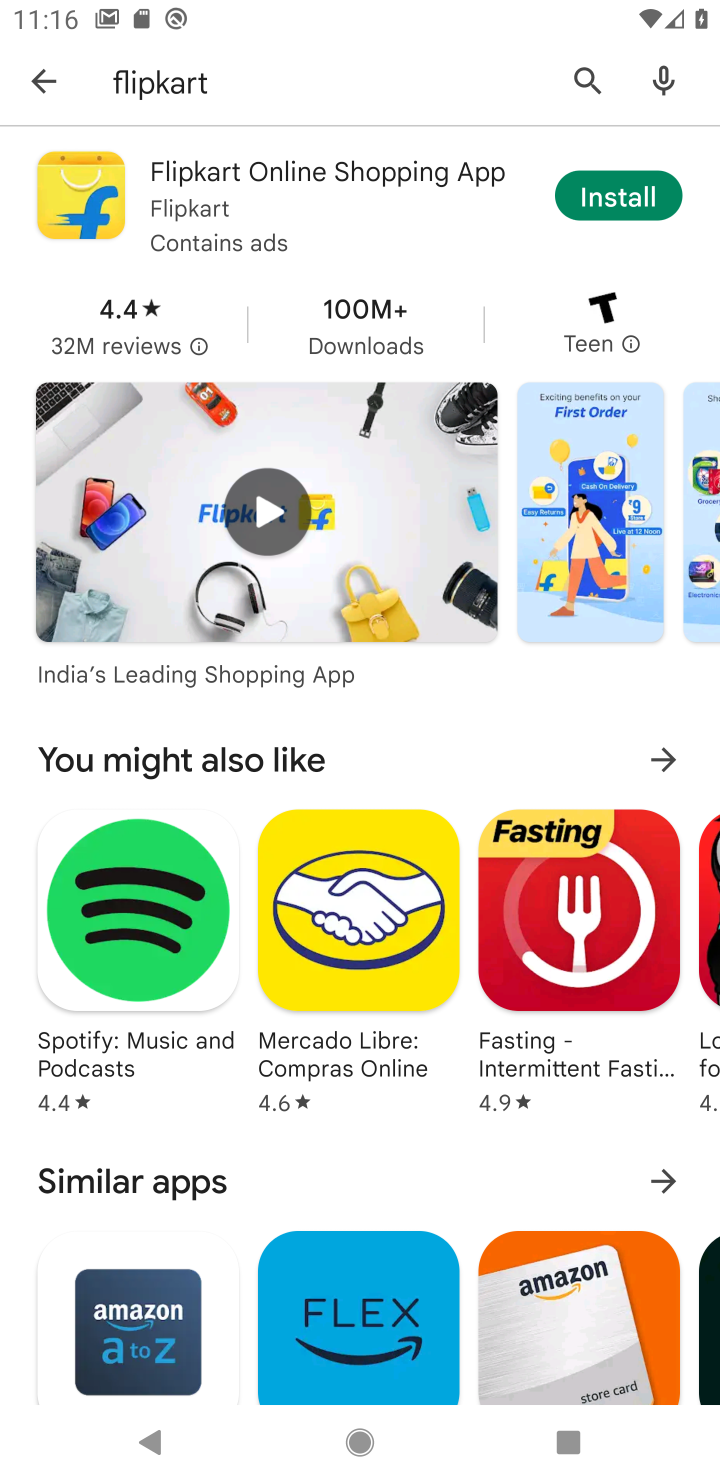
Step 29: click (627, 208)
Your task to perform on an android device: open app "Flipkart Online Shopping App" (install if not already installed) Image 30: 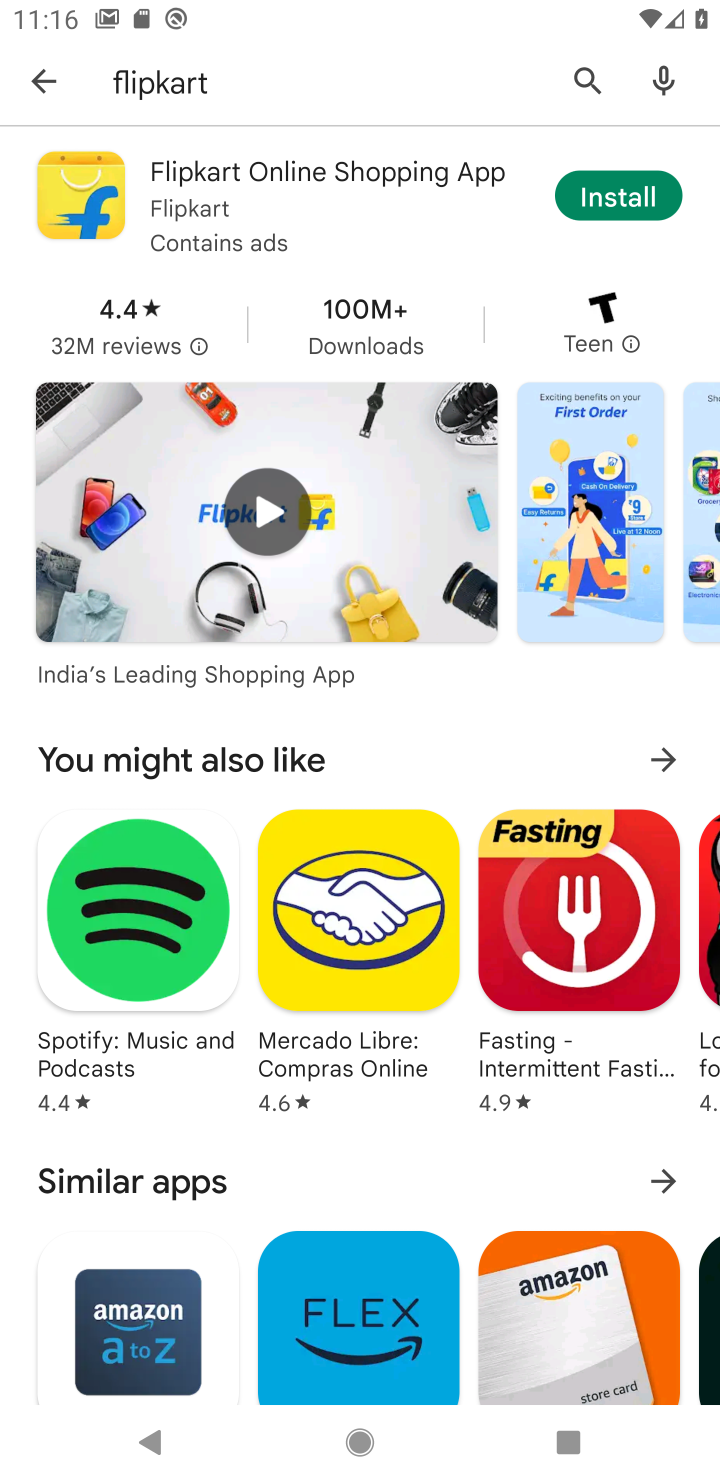
Step 30: click (592, 195)
Your task to perform on an android device: open app "Flipkart Online Shopping App" (install if not already installed) Image 31: 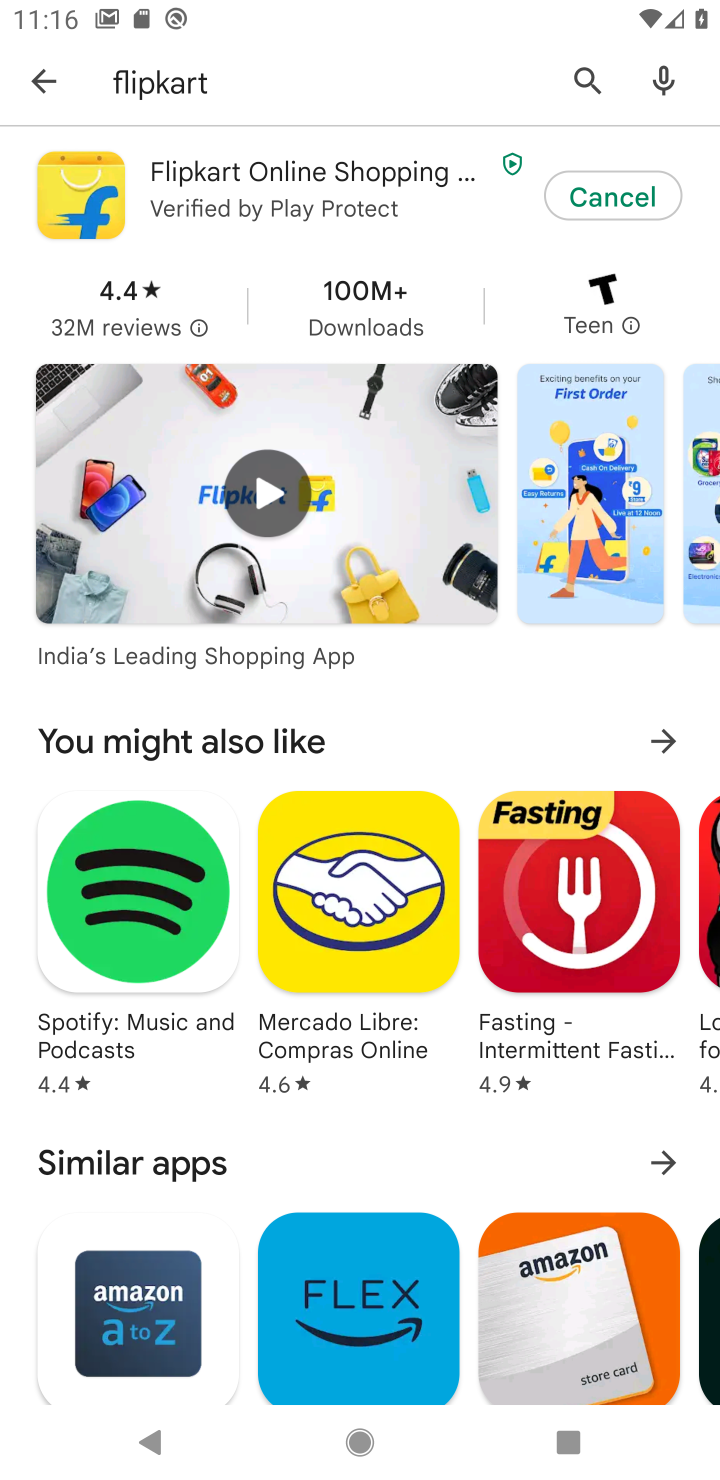
Step 31: click (592, 195)
Your task to perform on an android device: open app "Flipkart Online Shopping App" (install if not already installed) Image 32: 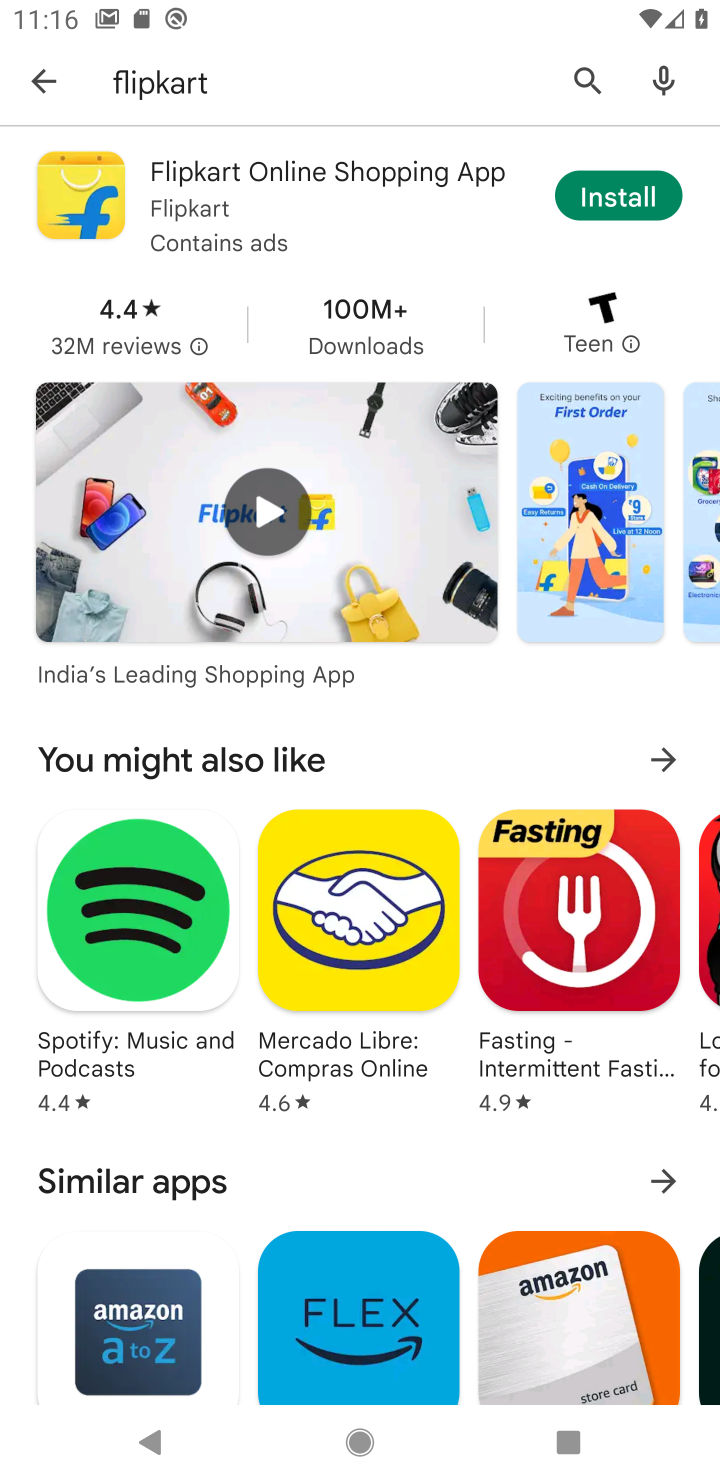
Step 32: click (635, 198)
Your task to perform on an android device: open app "Flipkart Online Shopping App" (install if not already installed) Image 33: 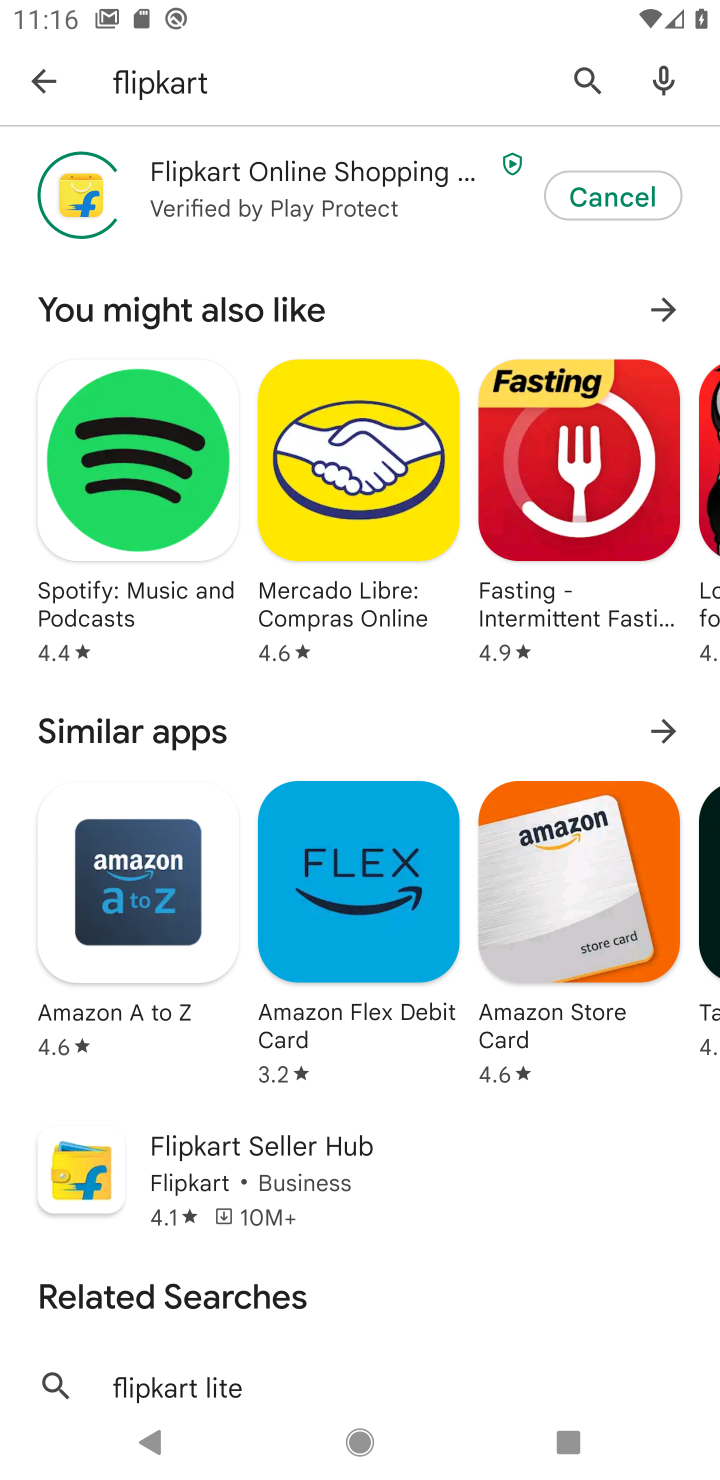
Step 33: click (632, 211)
Your task to perform on an android device: open app "Flipkart Online Shopping App" (install if not already installed) Image 34: 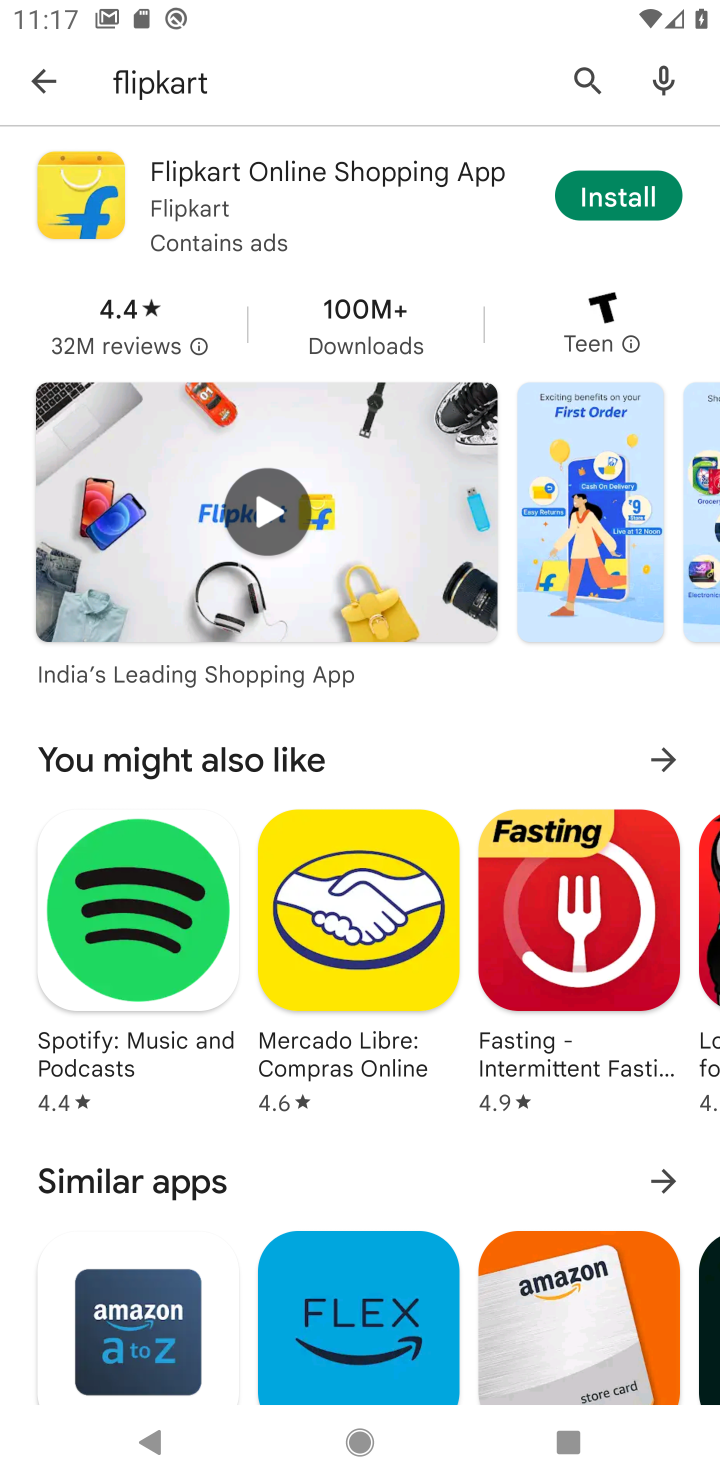
Step 34: click (614, 189)
Your task to perform on an android device: open app "Flipkart Online Shopping App" (install if not already installed) Image 35: 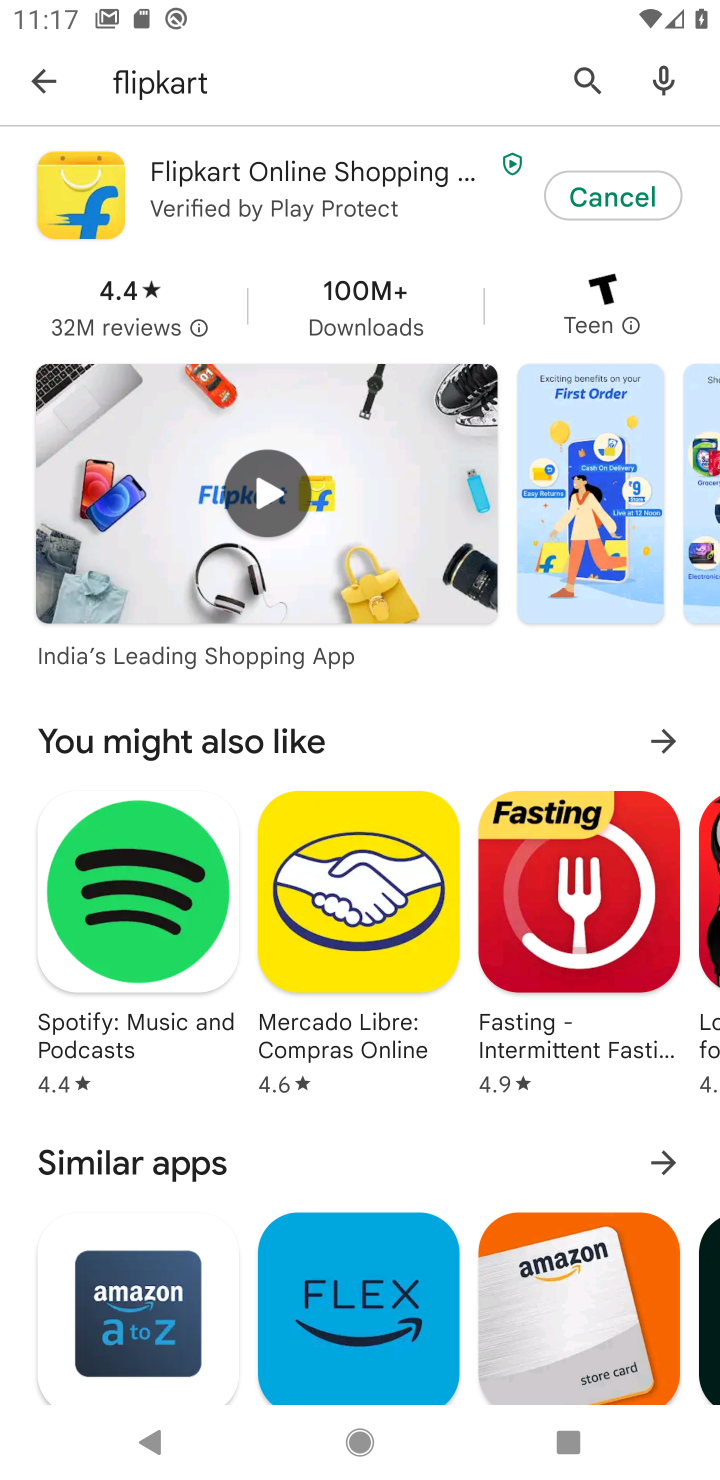
Step 35: click (625, 185)
Your task to perform on an android device: open app "Flipkart Online Shopping App" (install if not already installed) Image 36: 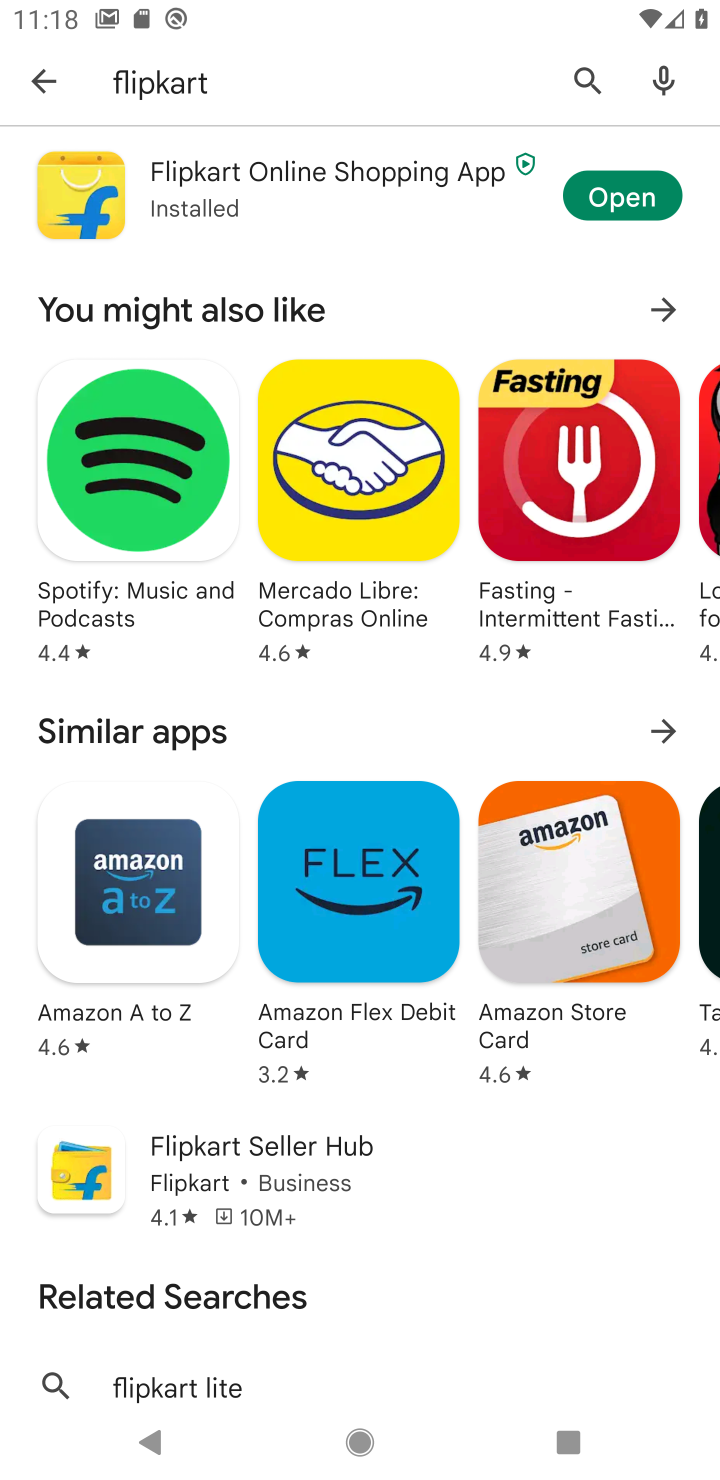
Step 36: click (635, 212)
Your task to perform on an android device: open app "Flipkart Online Shopping App" (install if not already installed) Image 37: 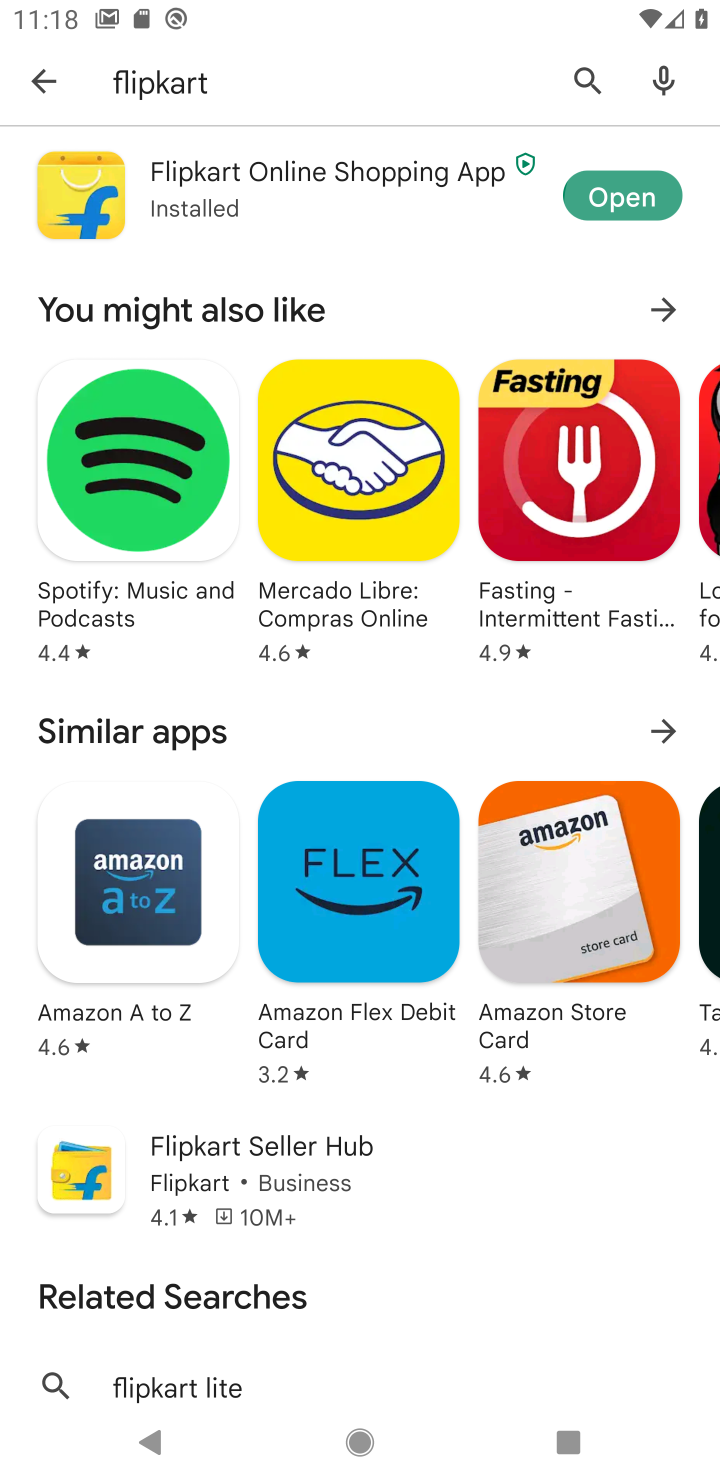
Step 37: click (635, 212)
Your task to perform on an android device: open app "Flipkart Online Shopping App" (install if not already installed) Image 38: 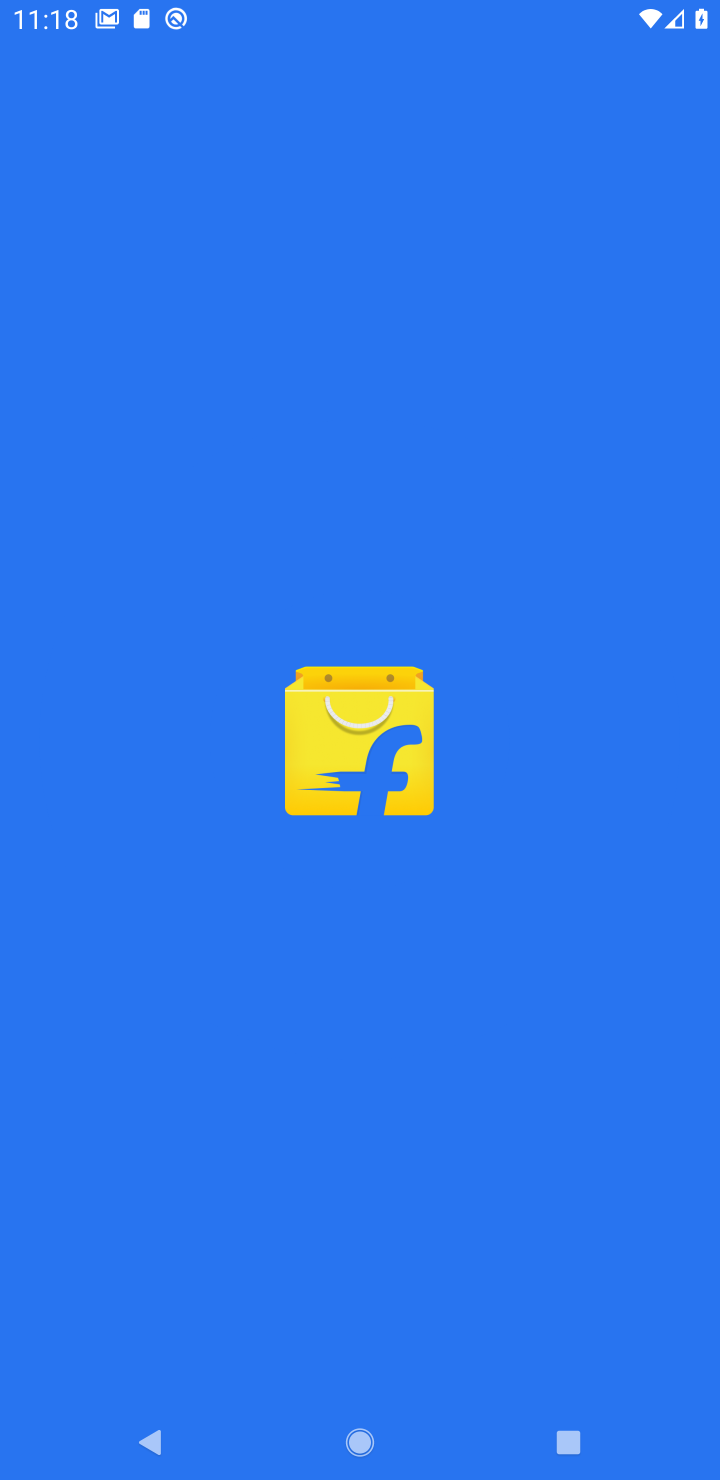
Step 38: task complete